Your task to perform on an android device: Search for usb-c to usb-b on ebay.com, select the first entry, and add it to the cart. Image 0: 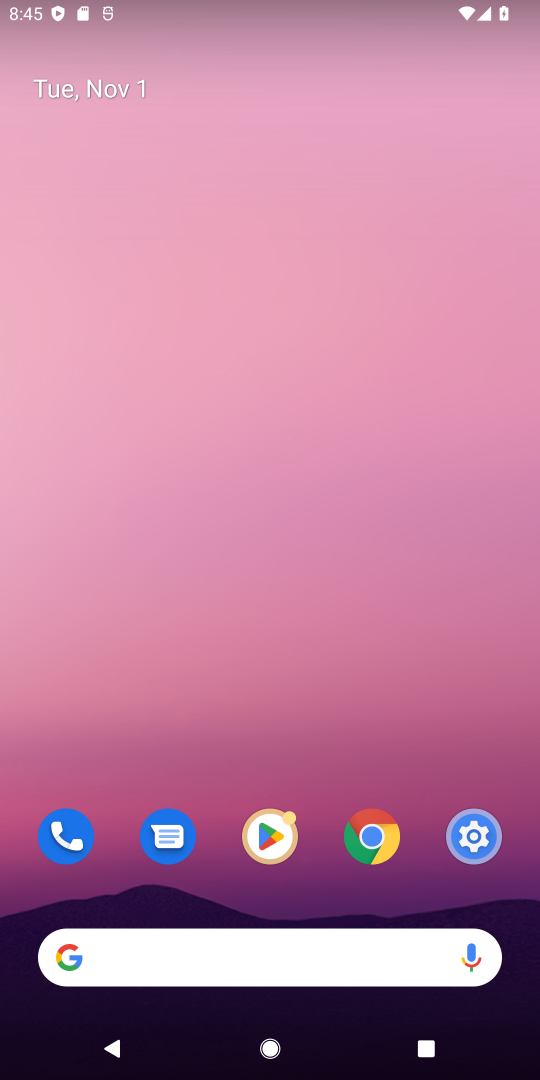
Step 0: click (383, 841)
Your task to perform on an android device: Search for usb-c to usb-b on ebay.com, select the first entry, and add it to the cart. Image 1: 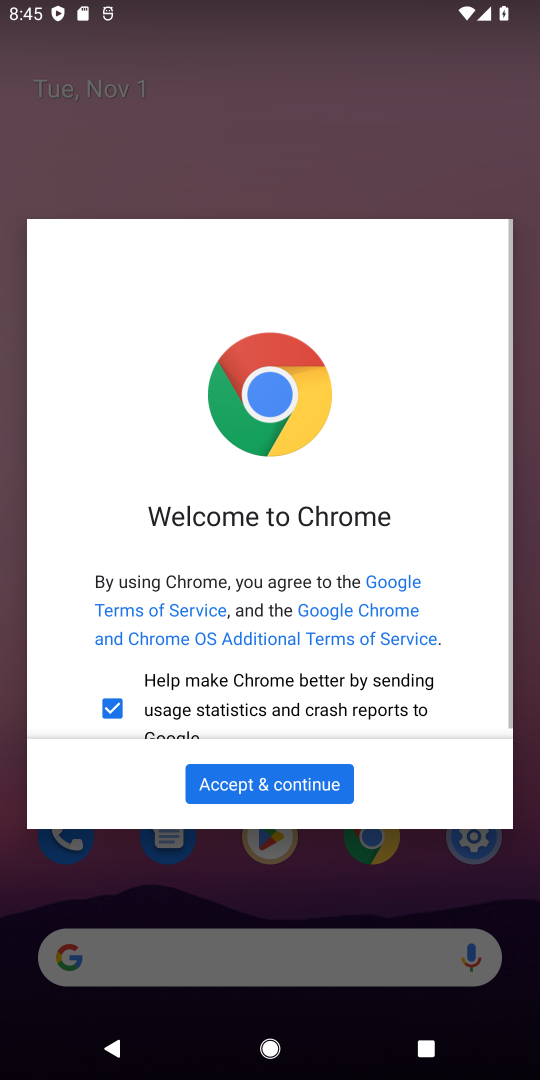
Step 1: click (248, 786)
Your task to perform on an android device: Search for usb-c to usb-b on ebay.com, select the first entry, and add it to the cart. Image 2: 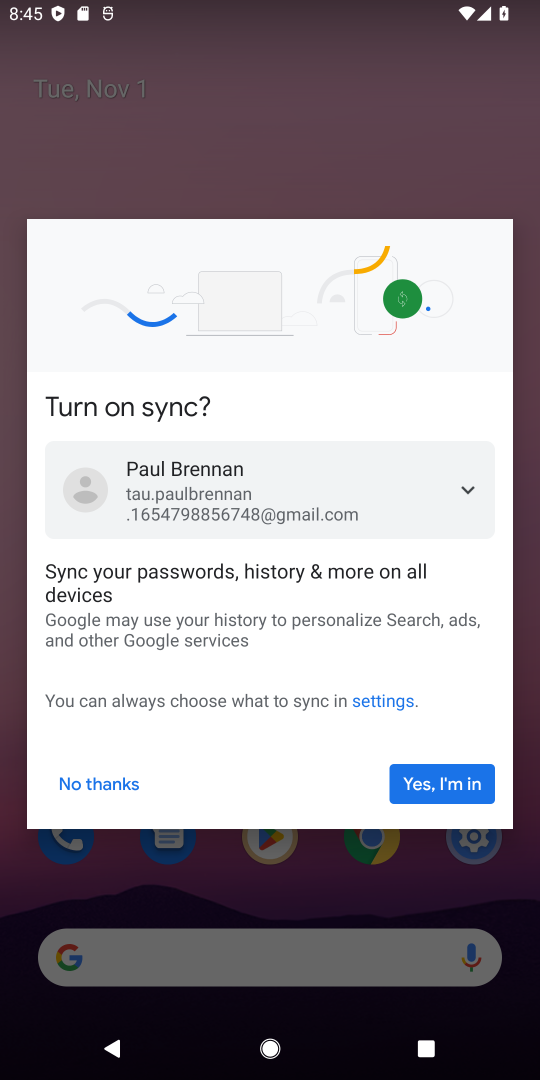
Step 2: click (411, 784)
Your task to perform on an android device: Search for usb-c to usb-b on ebay.com, select the first entry, and add it to the cart. Image 3: 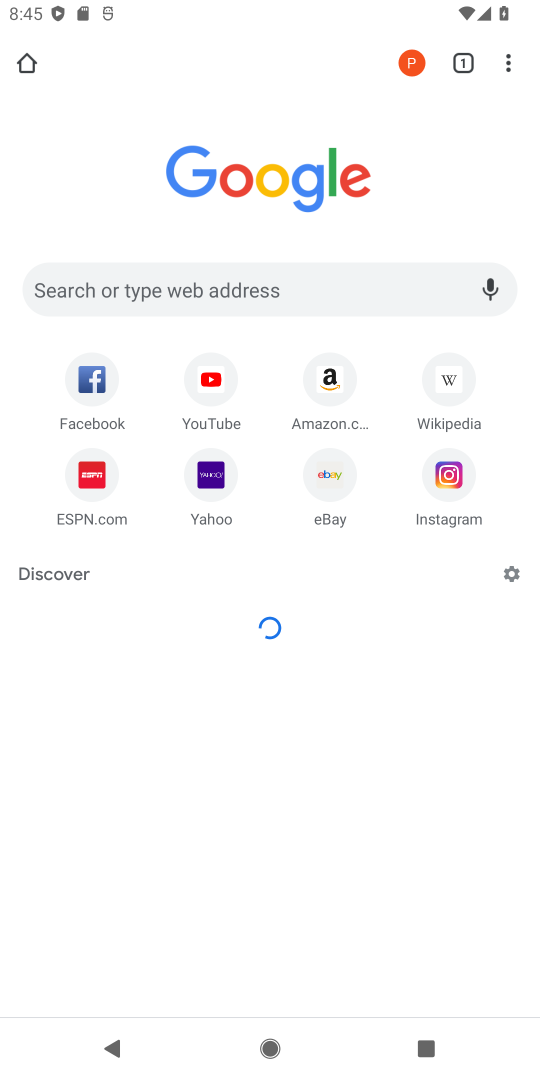
Step 3: click (282, 267)
Your task to perform on an android device: Search for usb-c to usb-b on ebay.com, select the first entry, and add it to the cart. Image 4: 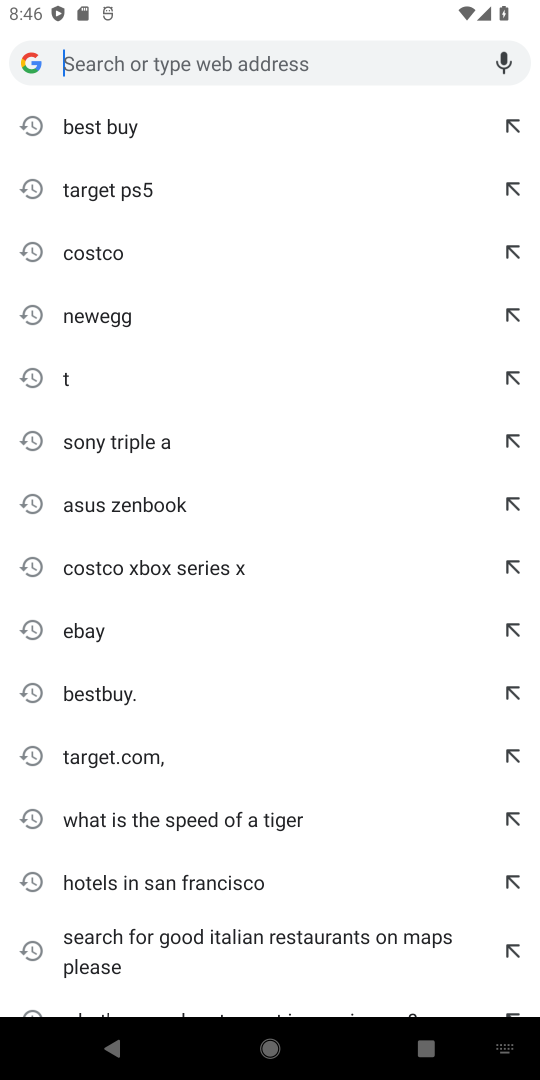
Step 4: type "ebay.com"
Your task to perform on an android device: Search for usb-c to usb-b on ebay.com, select the first entry, and add it to the cart. Image 5: 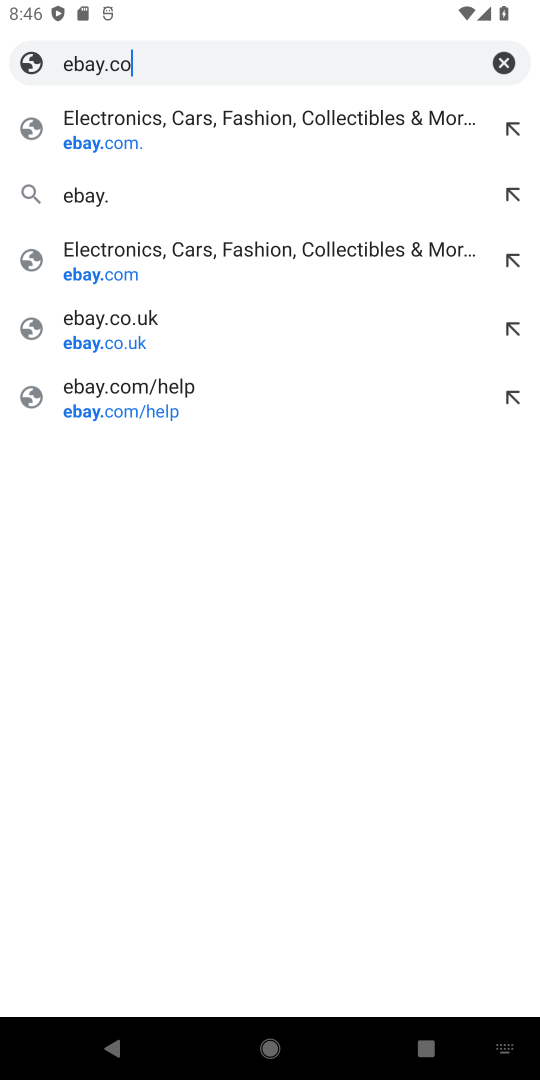
Step 5: press enter
Your task to perform on an android device: Search for usb-c to usb-b on ebay.com, select the first entry, and add it to the cart. Image 6: 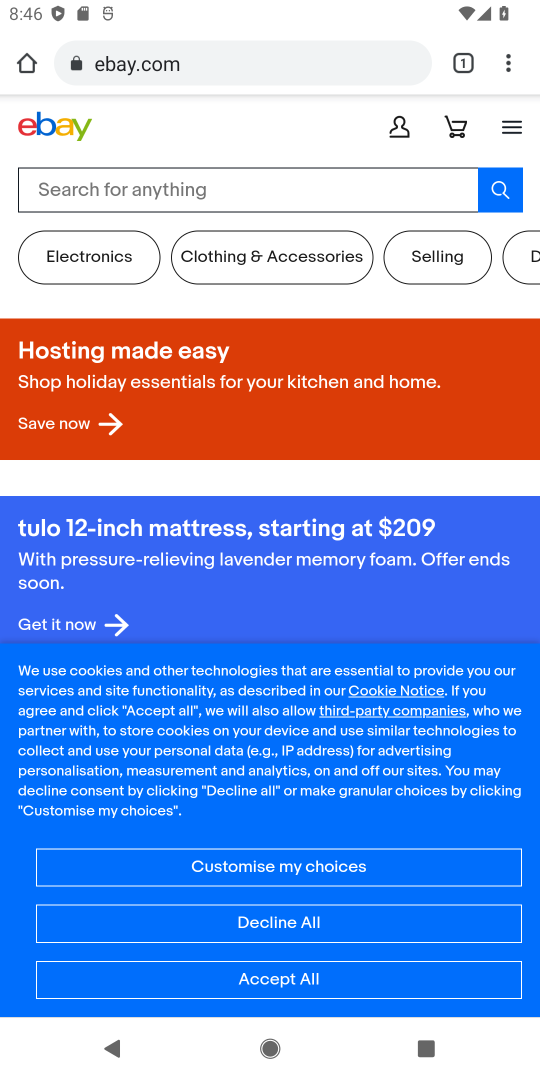
Step 6: click (184, 981)
Your task to perform on an android device: Search for usb-c to usb-b on ebay.com, select the first entry, and add it to the cart. Image 7: 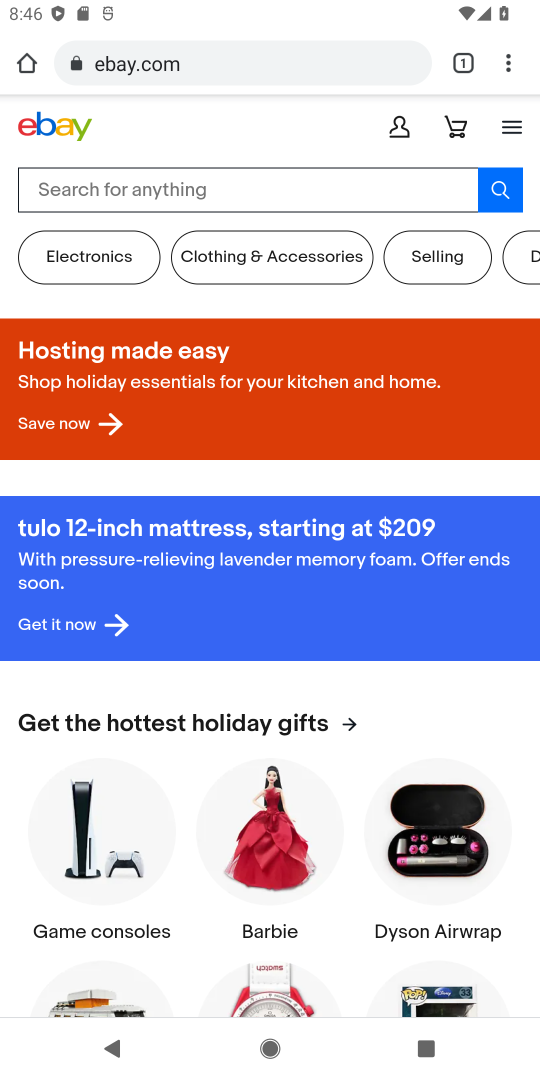
Step 7: click (331, 189)
Your task to perform on an android device: Search for usb-c to usb-b on ebay.com, select the first entry, and add it to the cart. Image 8: 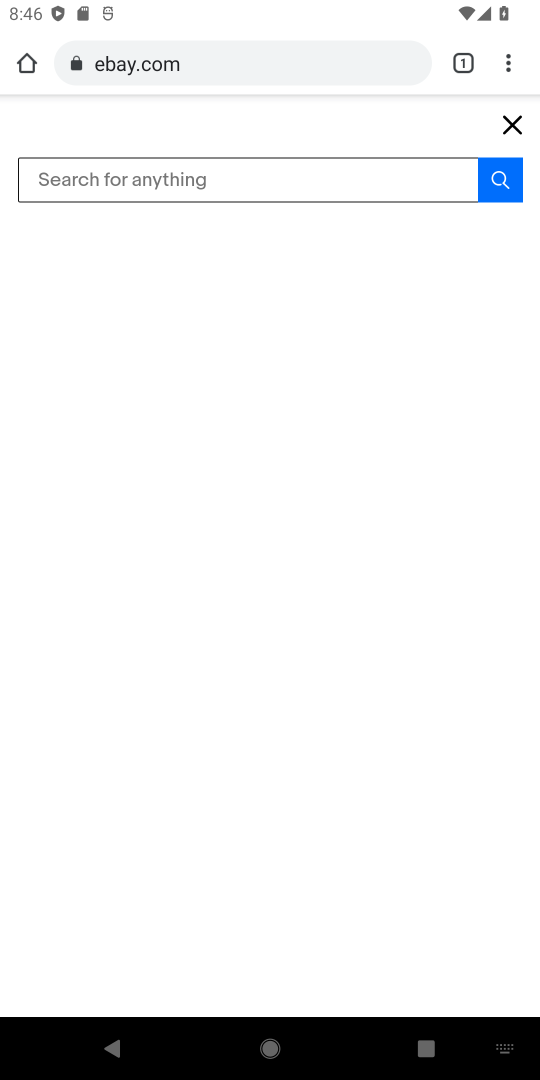
Step 8: type "usb-c to usb-b "
Your task to perform on an android device: Search for usb-c to usb-b on ebay.com, select the first entry, and add it to the cart. Image 9: 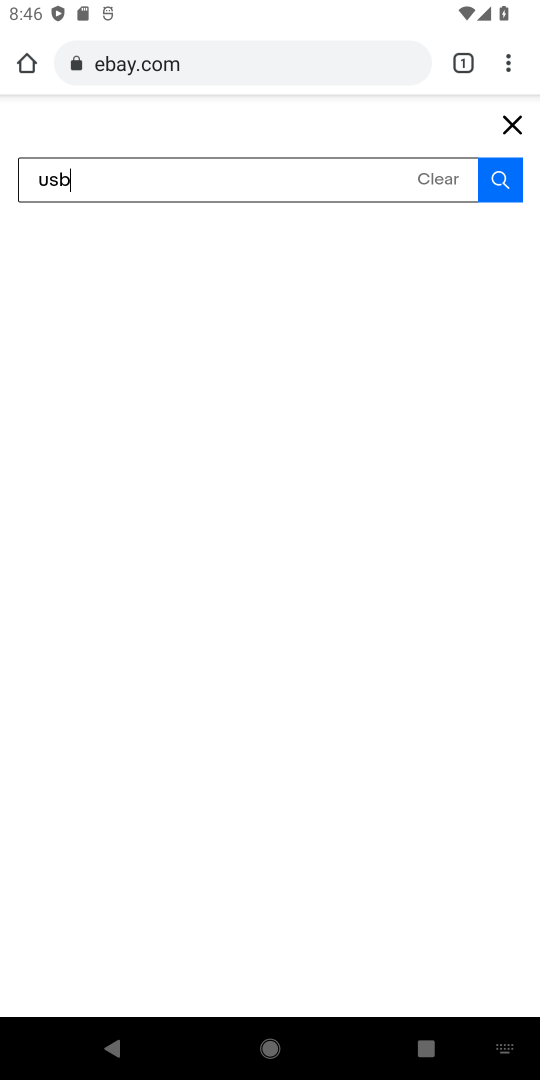
Step 9: type ""
Your task to perform on an android device: Search for usb-c to usb-b on ebay.com, select the first entry, and add it to the cart. Image 10: 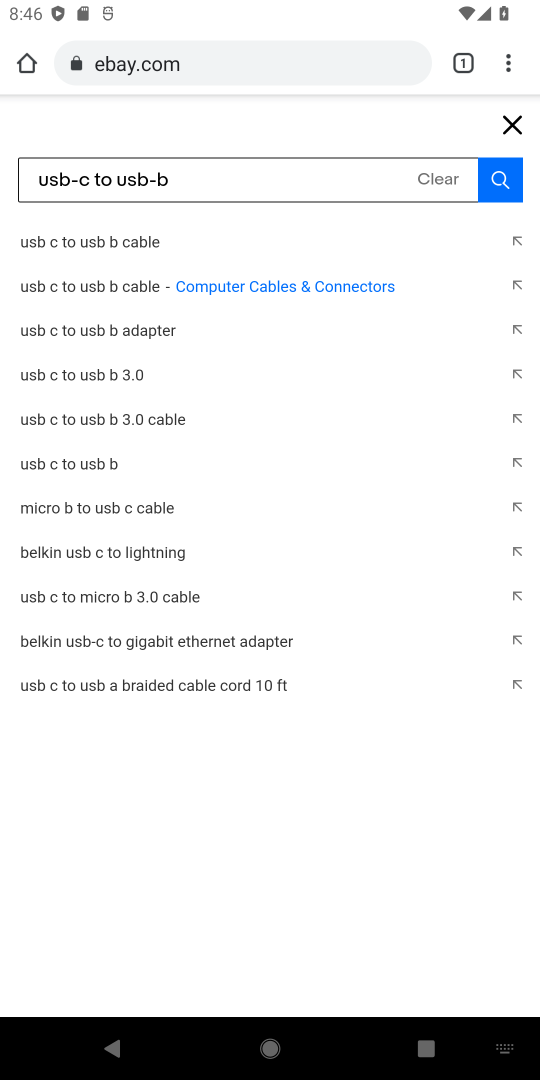
Step 10: click (156, 236)
Your task to perform on an android device: Search for usb-c to usb-b on ebay.com, select the first entry, and add it to the cart. Image 11: 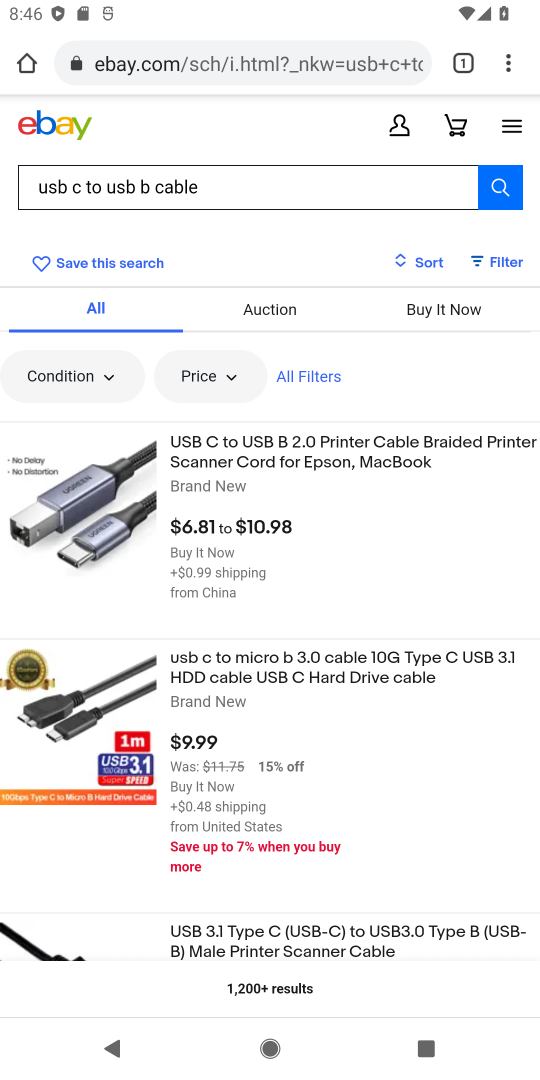
Step 11: click (208, 491)
Your task to perform on an android device: Search for usb-c to usb-b on ebay.com, select the first entry, and add it to the cart. Image 12: 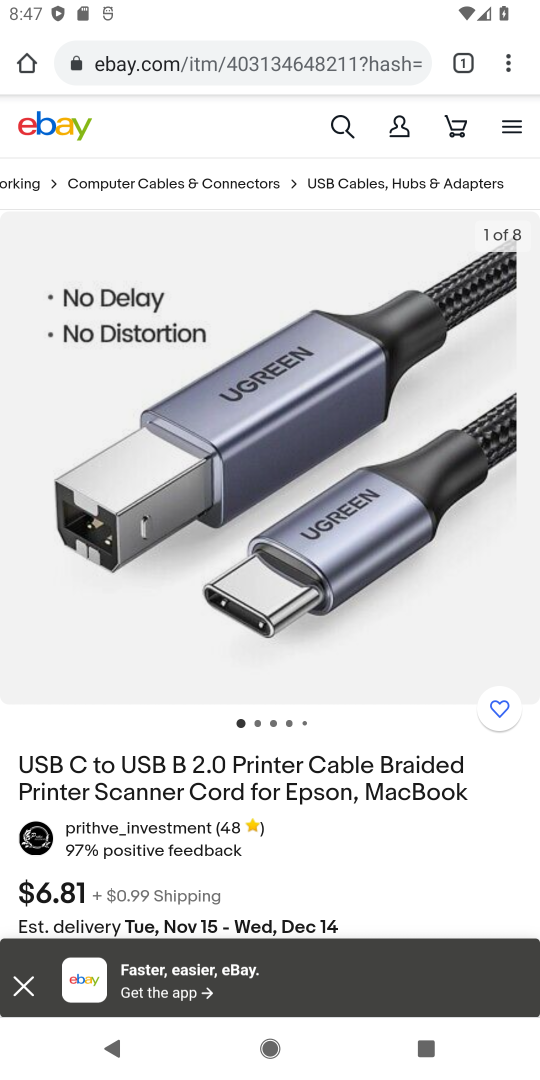
Step 12: drag from (318, 538) to (348, 368)
Your task to perform on an android device: Search for usb-c to usb-b on ebay.com, select the first entry, and add it to the cart. Image 13: 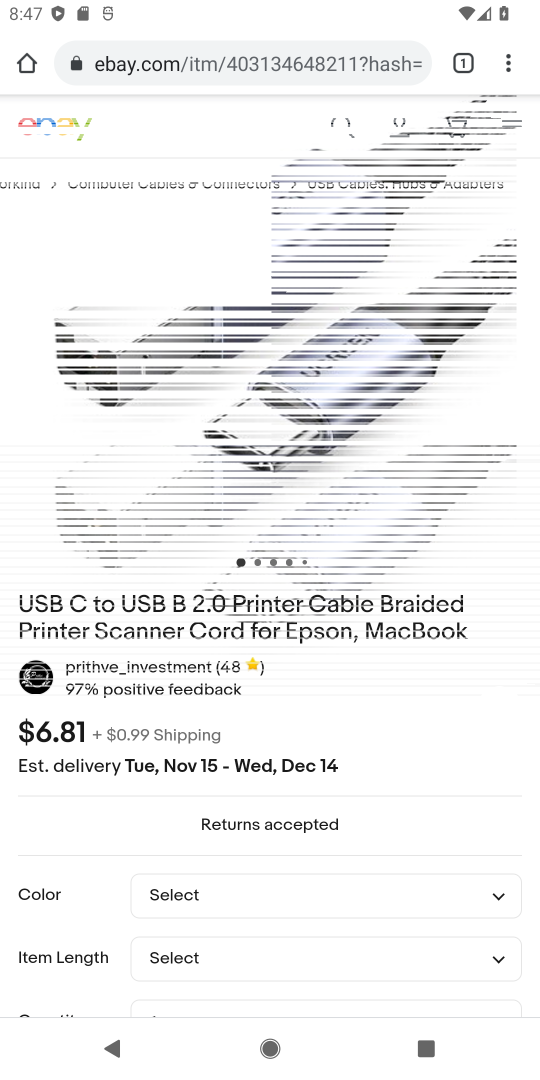
Step 13: click (392, 375)
Your task to perform on an android device: Search for usb-c to usb-b on ebay.com, select the first entry, and add it to the cart. Image 14: 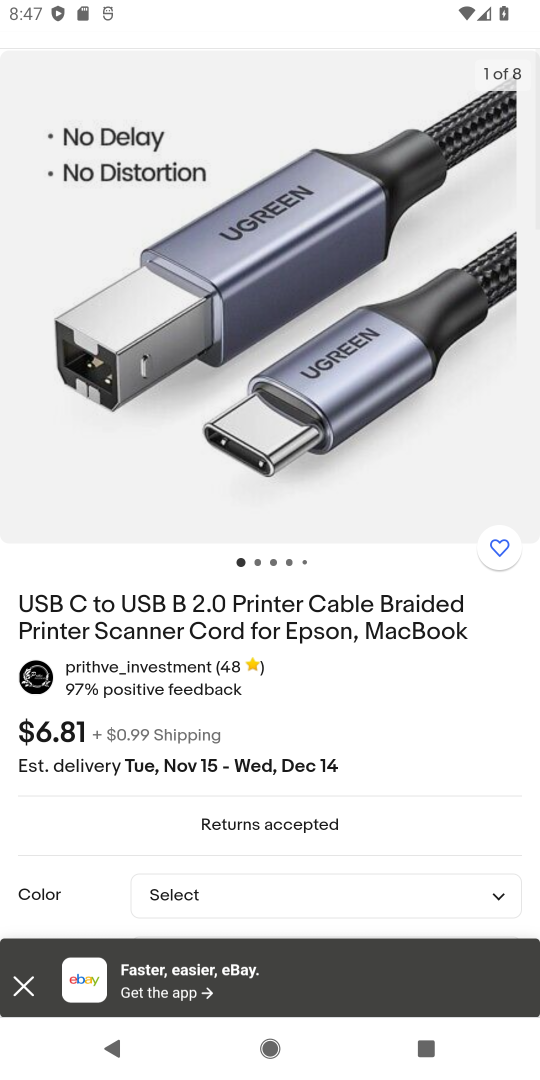
Step 14: drag from (451, 366) to (469, 290)
Your task to perform on an android device: Search for usb-c to usb-b on ebay.com, select the first entry, and add it to the cart. Image 15: 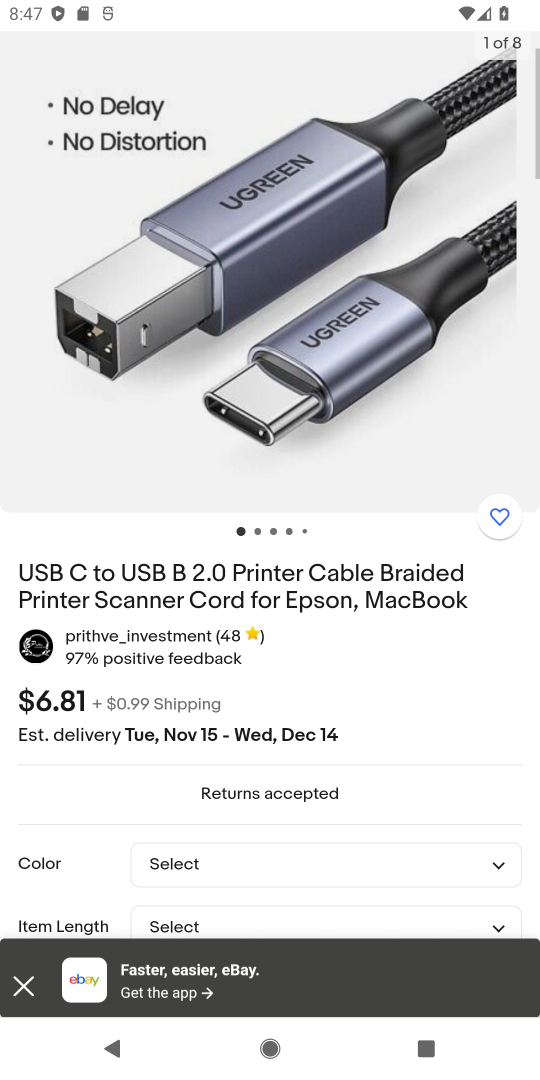
Step 15: drag from (503, 434) to (509, 382)
Your task to perform on an android device: Search for usb-c to usb-b on ebay.com, select the first entry, and add it to the cart. Image 16: 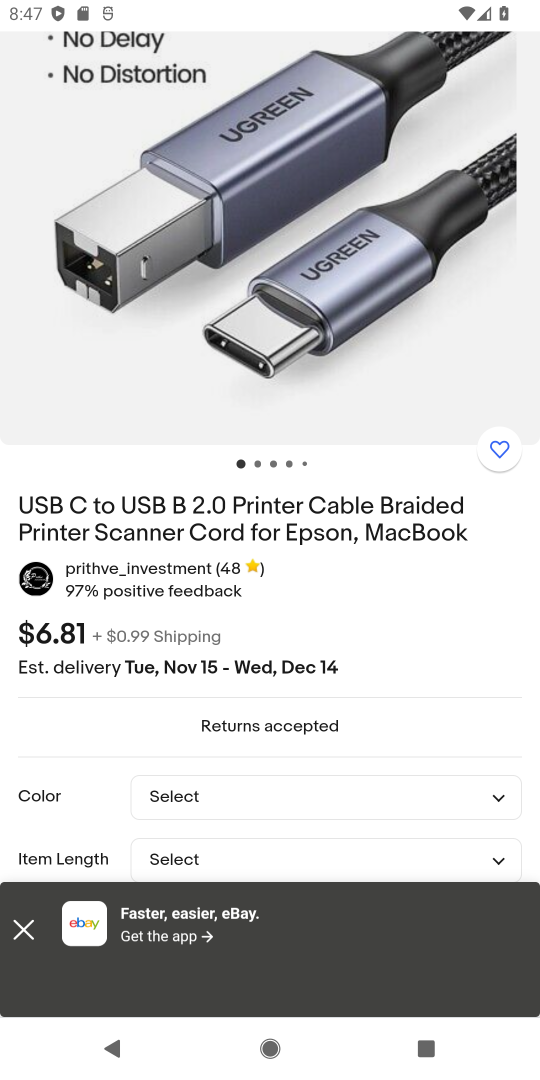
Step 16: drag from (452, 588) to (504, 363)
Your task to perform on an android device: Search for usb-c to usb-b on ebay.com, select the first entry, and add it to the cart. Image 17: 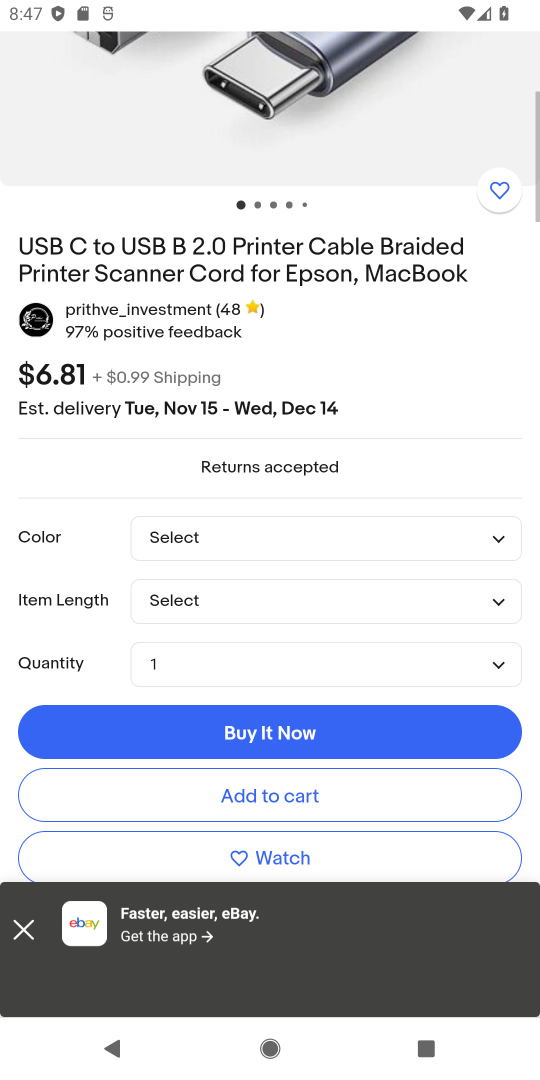
Step 17: drag from (487, 551) to (537, 385)
Your task to perform on an android device: Search for usb-c to usb-b on ebay.com, select the first entry, and add it to the cart. Image 18: 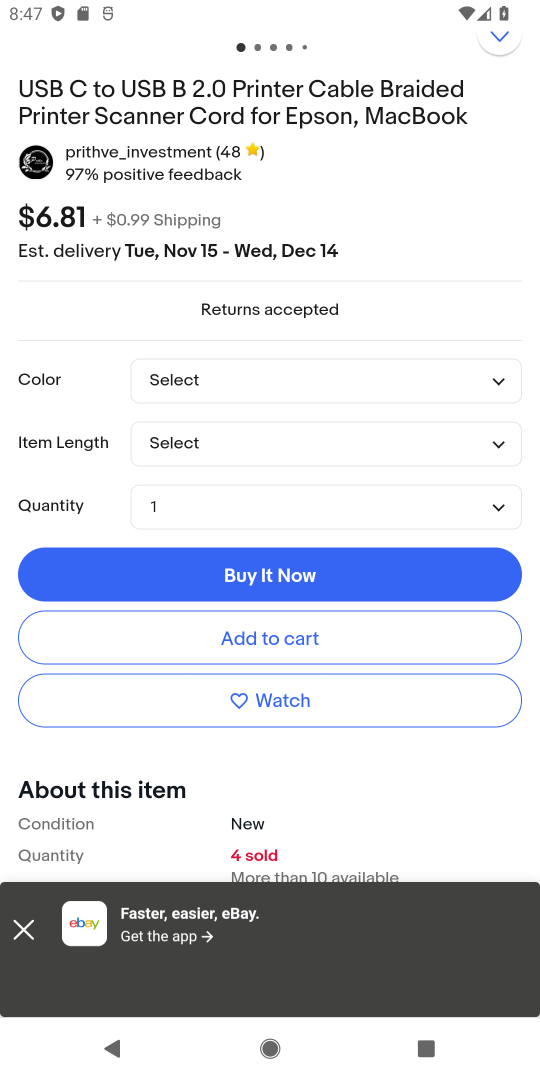
Step 18: click (298, 640)
Your task to perform on an android device: Search for usb-c to usb-b on ebay.com, select the first entry, and add it to the cart. Image 19: 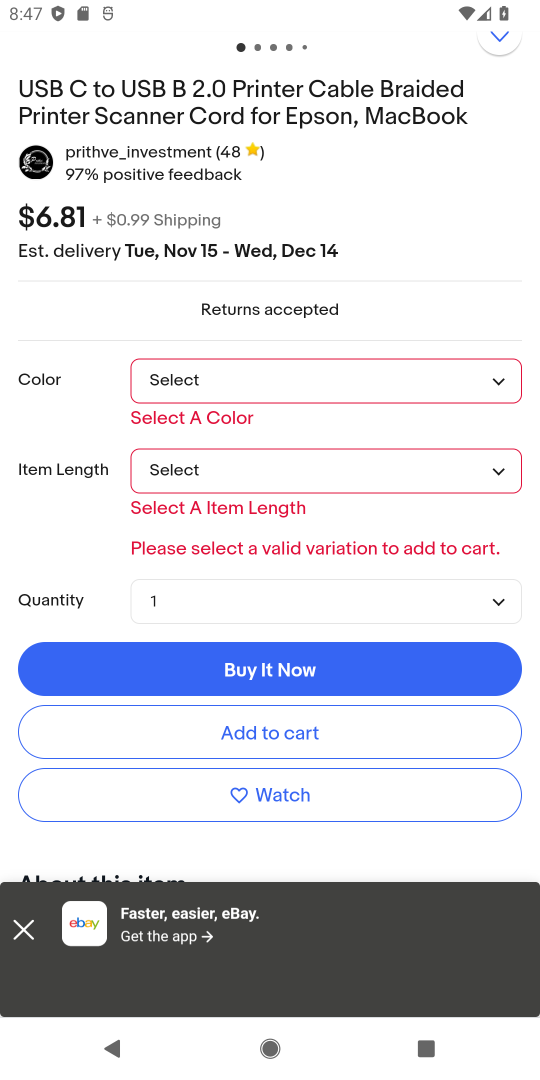
Step 19: click (303, 392)
Your task to perform on an android device: Search for usb-c to usb-b on ebay.com, select the first entry, and add it to the cart. Image 20: 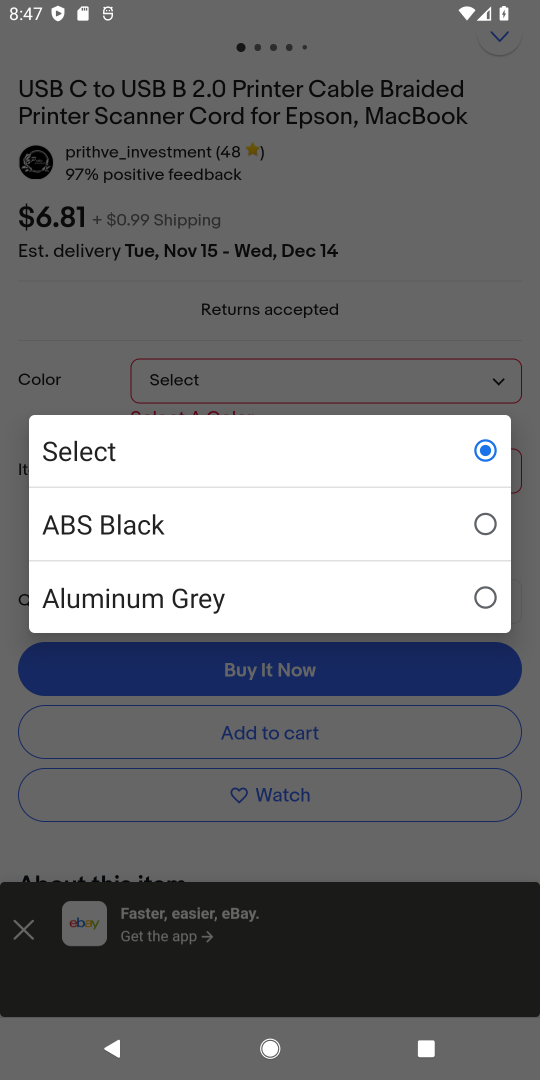
Step 20: click (269, 517)
Your task to perform on an android device: Search for usb-c to usb-b on ebay.com, select the first entry, and add it to the cart. Image 21: 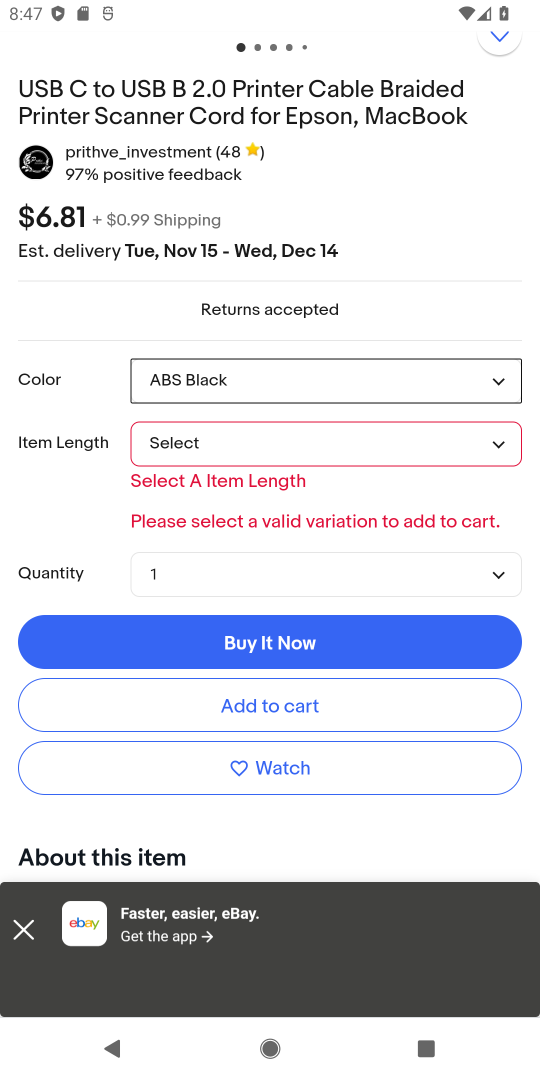
Step 21: click (290, 443)
Your task to perform on an android device: Search for usb-c to usb-b on ebay.com, select the first entry, and add it to the cart. Image 22: 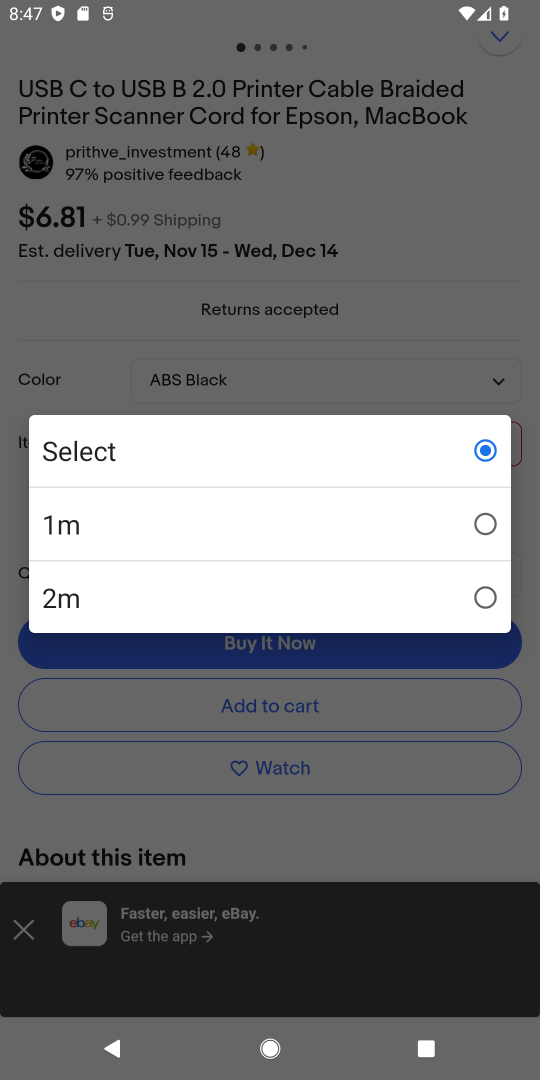
Step 22: click (258, 596)
Your task to perform on an android device: Search for usb-c to usb-b on ebay.com, select the first entry, and add it to the cart. Image 23: 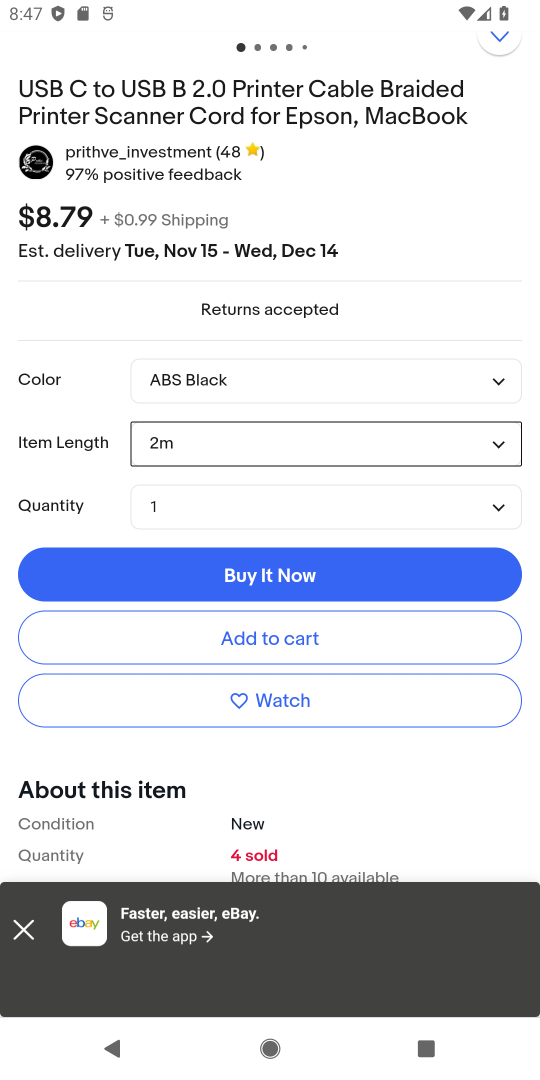
Step 23: click (262, 624)
Your task to perform on an android device: Search for usb-c to usb-b on ebay.com, select the first entry, and add it to the cart. Image 24: 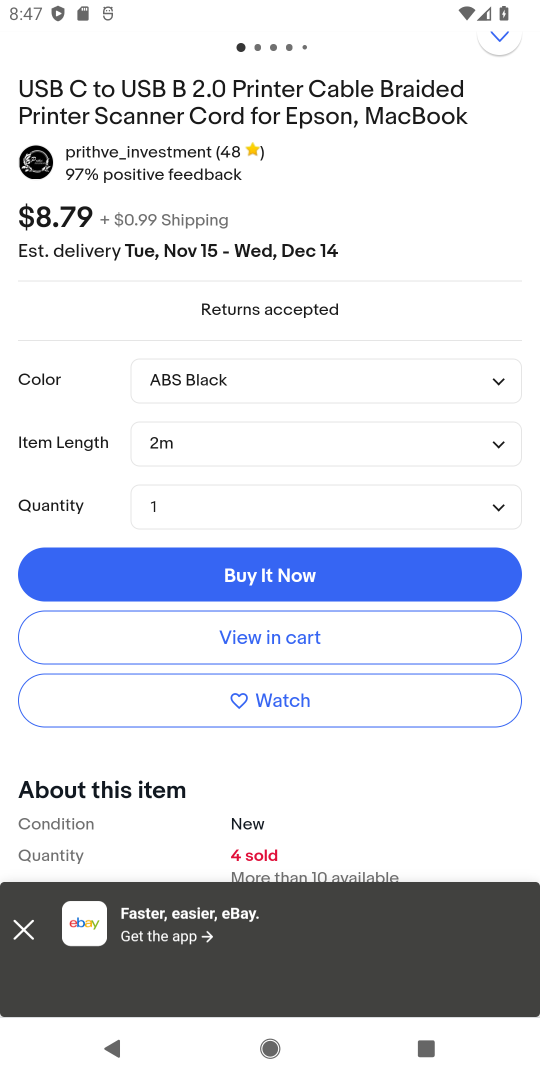
Step 24: click (23, 925)
Your task to perform on an android device: Search for usb-c to usb-b on ebay.com, select the first entry, and add it to the cart. Image 25: 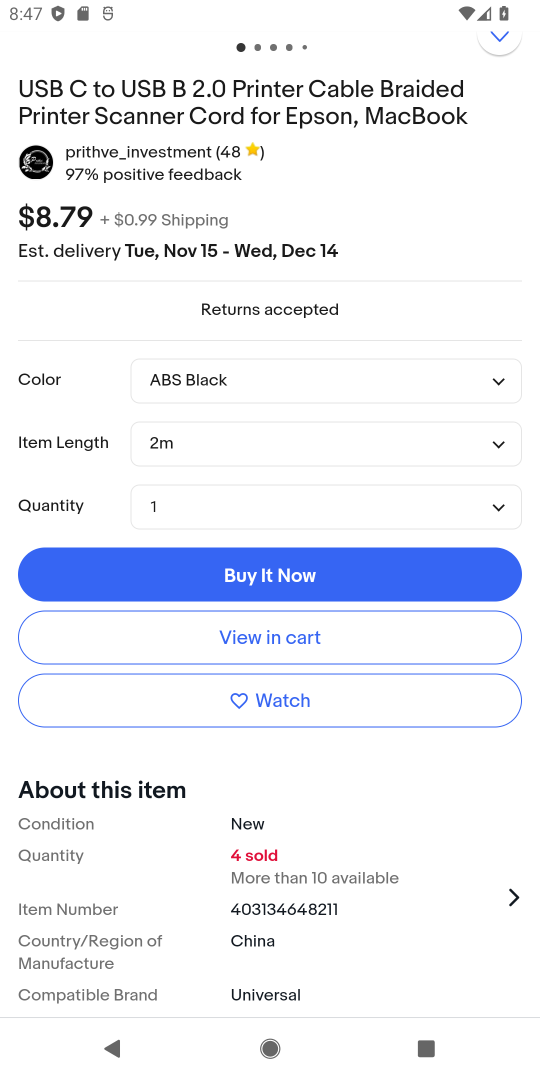
Step 25: click (221, 639)
Your task to perform on an android device: Search for usb-c to usb-b on ebay.com, select the first entry, and add it to the cart. Image 26: 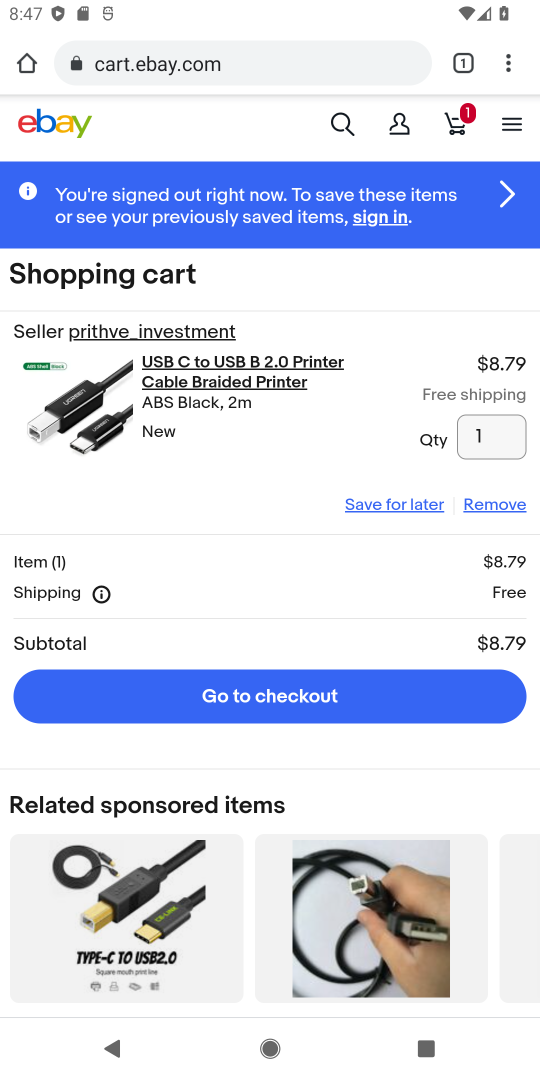
Step 26: click (234, 704)
Your task to perform on an android device: Search for usb-c to usb-b on ebay.com, select the first entry, and add it to the cart. Image 27: 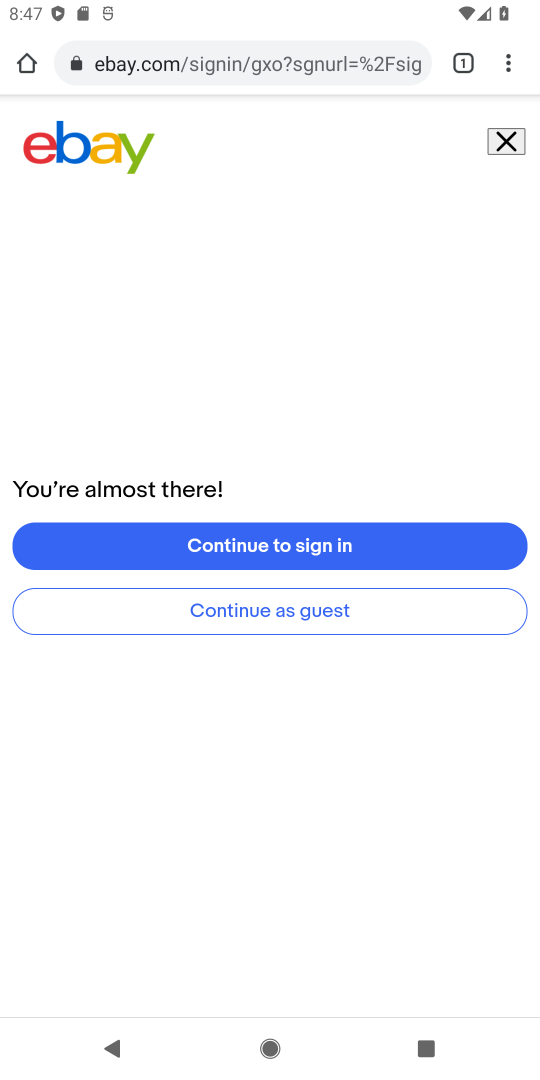
Step 27: click (265, 605)
Your task to perform on an android device: Search for usb-c to usb-b on ebay.com, select the first entry, and add it to the cart. Image 28: 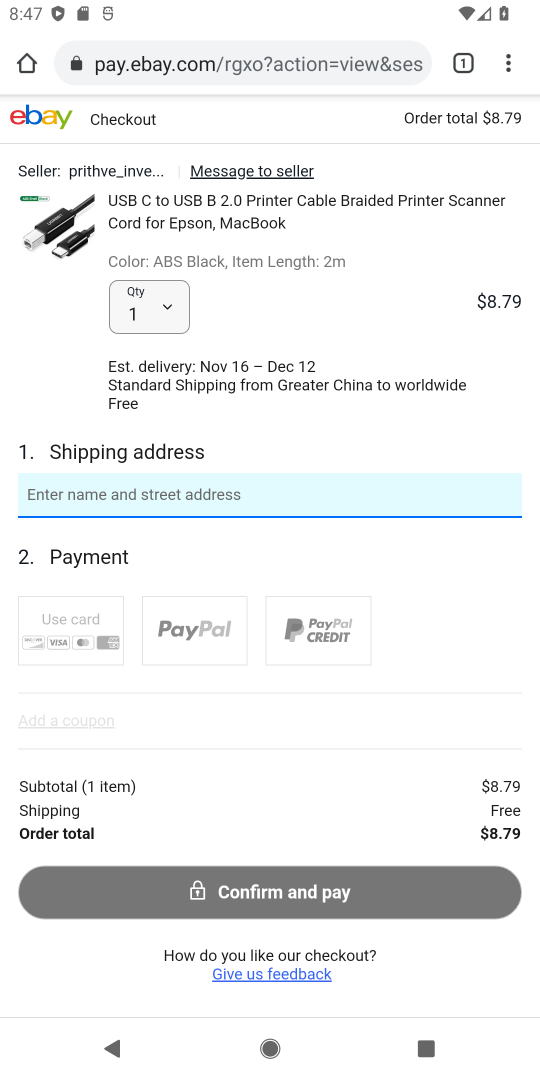
Step 28: drag from (332, 320) to (346, 259)
Your task to perform on an android device: Search for usb-c to usb-b on ebay.com, select the first entry, and add it to the cart. Image 29: 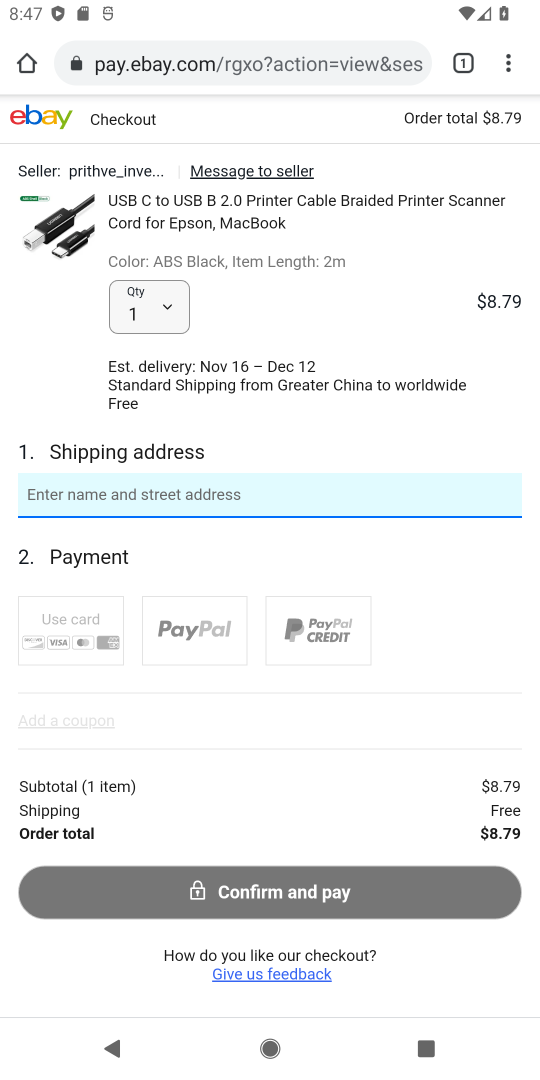
Step 29: drag from (299, 576) to (379, 309)
Your task to perform on an android device: Search for usb-c to usb-b on ebay.com, select the first entry, and add it to the cart. Image 30: 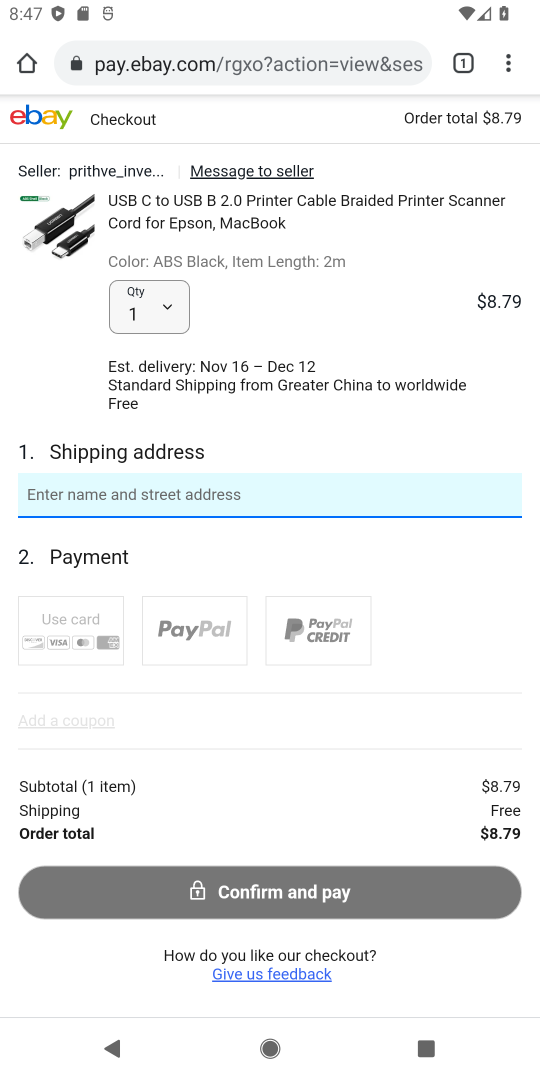
Step 30: drag from (328, 614) to (424, 265)
Your task to perform on an android device: Search for usb-c to usb-b on ebay.com, select the first entry, and add it to the cart. Image 31: 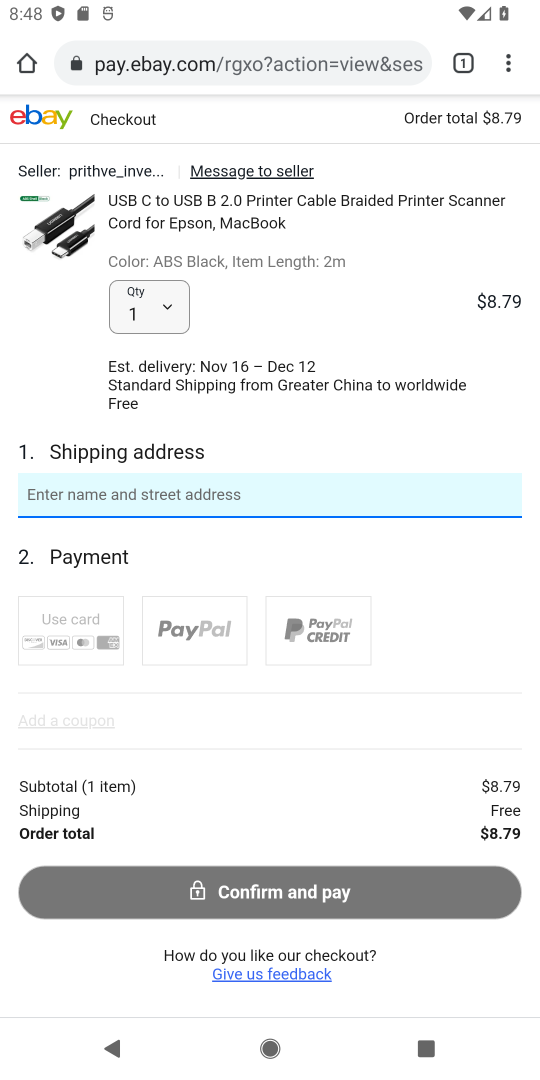
Step 31: drag from (237, 610) to (270, 259)
Your task to perform on an android device: Search for usb-c to usb-b on ebay.com, select the first entry, and add it to the cart. Image 32: 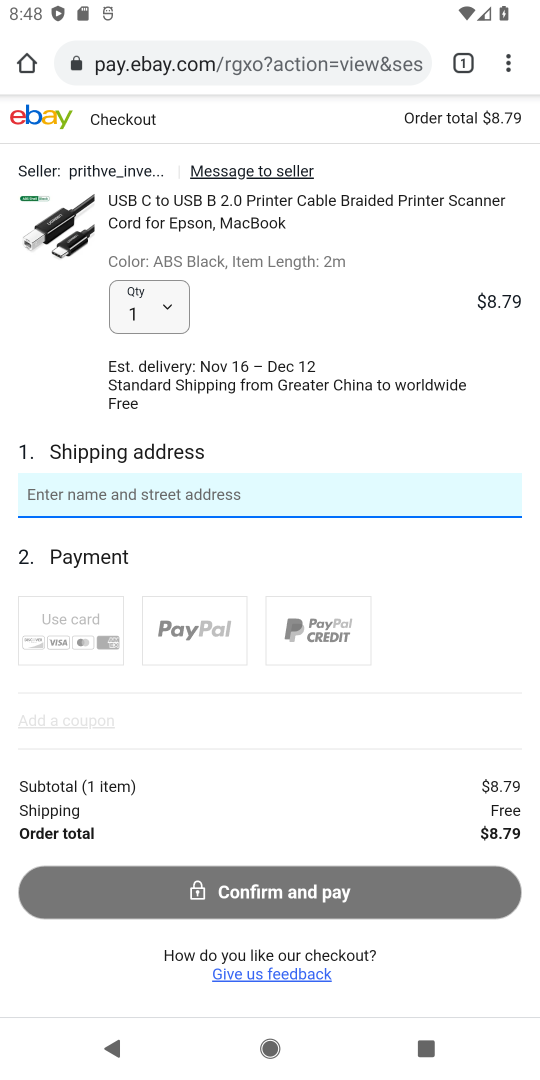
Step 32: drag from (248, 565) to (300, 216)
Your task to perform on an android device: Search for usb-c to usb-b on ebay.com, select the first entry, and add it to the cart. Image 33: 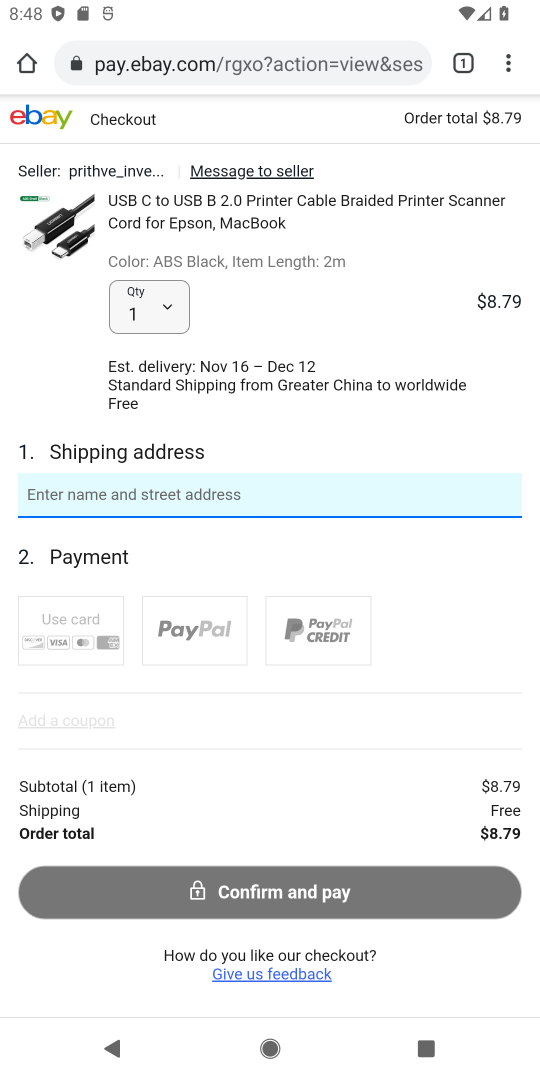
Step 33: click (329, 294)
Your task to perform on an android device: Search for usb-c to usb-b on ebay.com, select the first entry, and add it to the cart. Image 34: 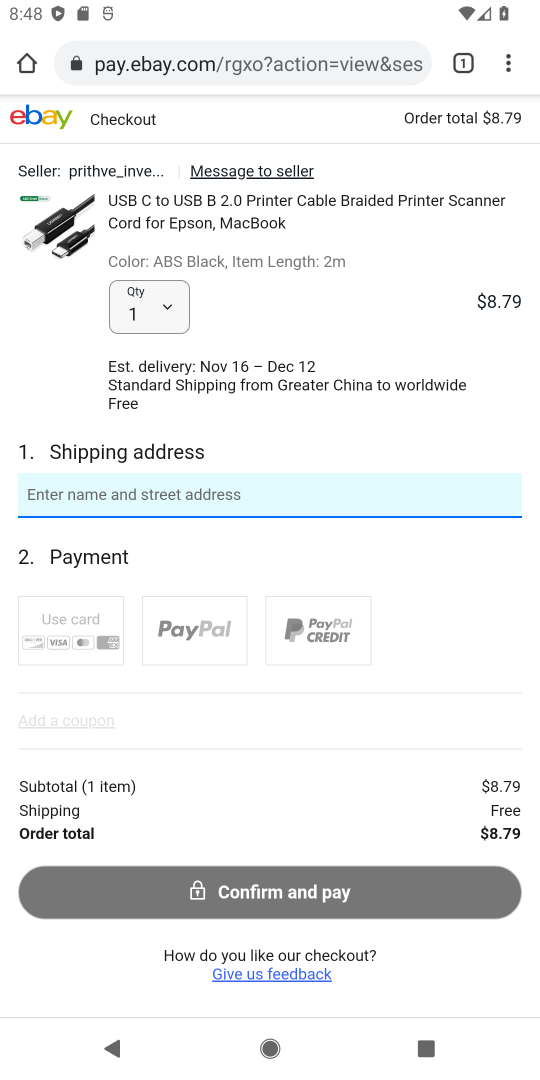
Step 34: press back button
Your task to perform on an android device: Search for usb-c to usb-b on ebay.com, select the first entry, and add it to the cart. Image 35: 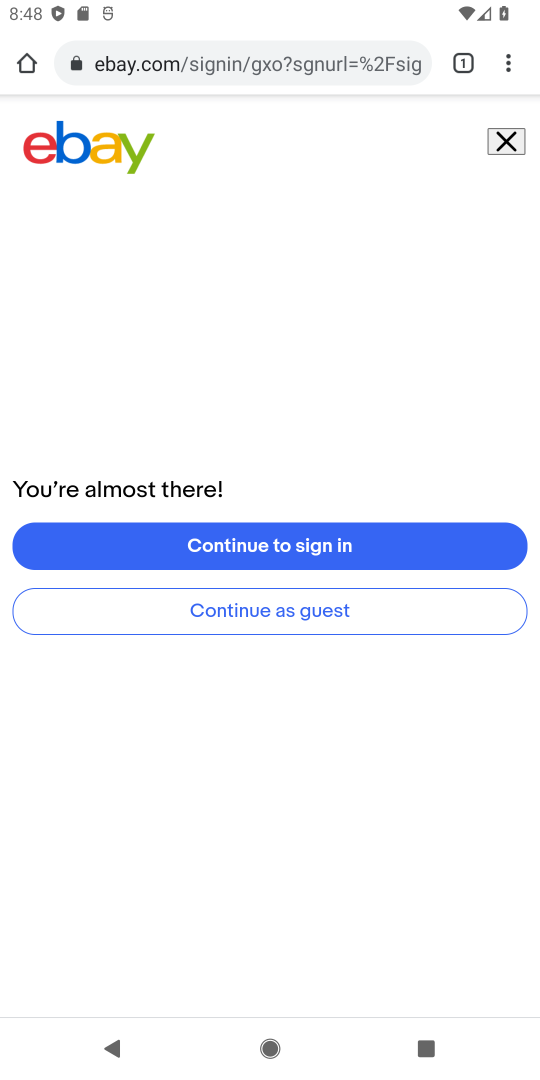
Step 35: click (497, 136)
Your task to perform on an android device: Search for usb-c to usb-b on ebay.com, select the first entry, and add it to the cart. Image 36: 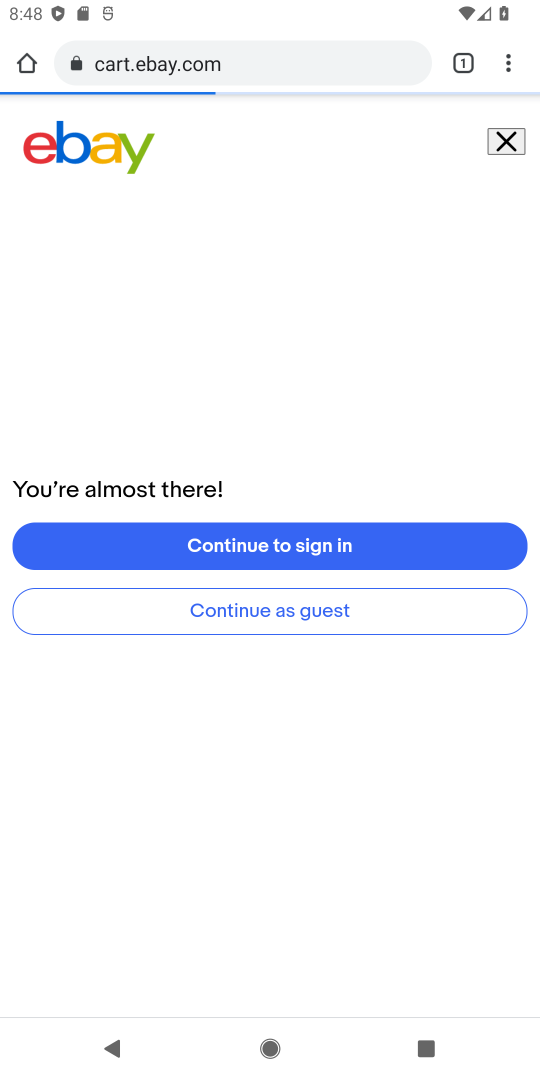
Step 36: drag from (303, 685) to (379, 295)
Your task to perform on an android device: Search for usb-c to usb-b on ebay.com, select the first entry, and add it to the cart. Image 37: 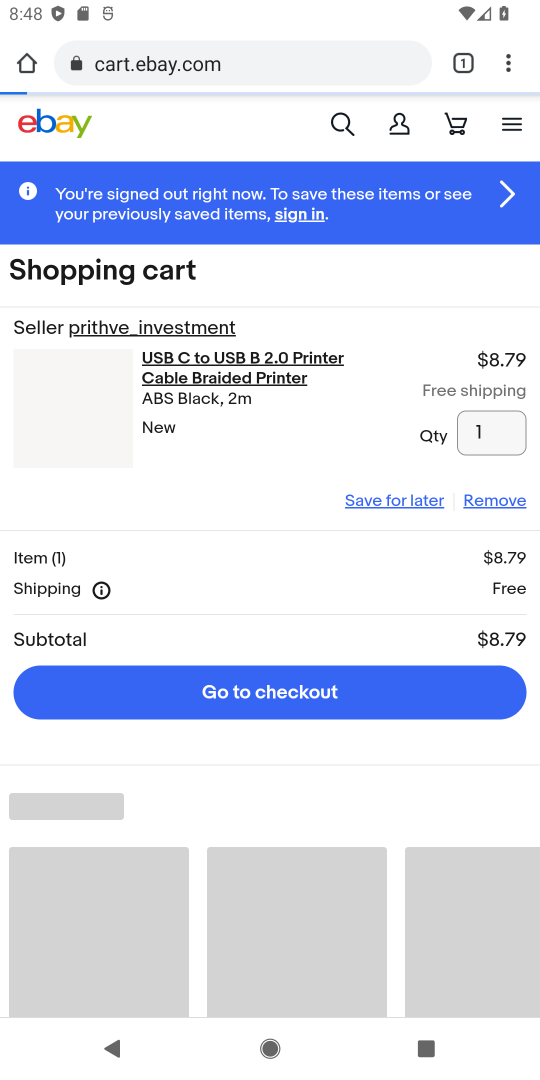
Step 37: click (395, 223)
Your task to perform on an android device: Search for usb-c to usb-b on ebay.com, select the first entry, and add it to the cart. Image 38: 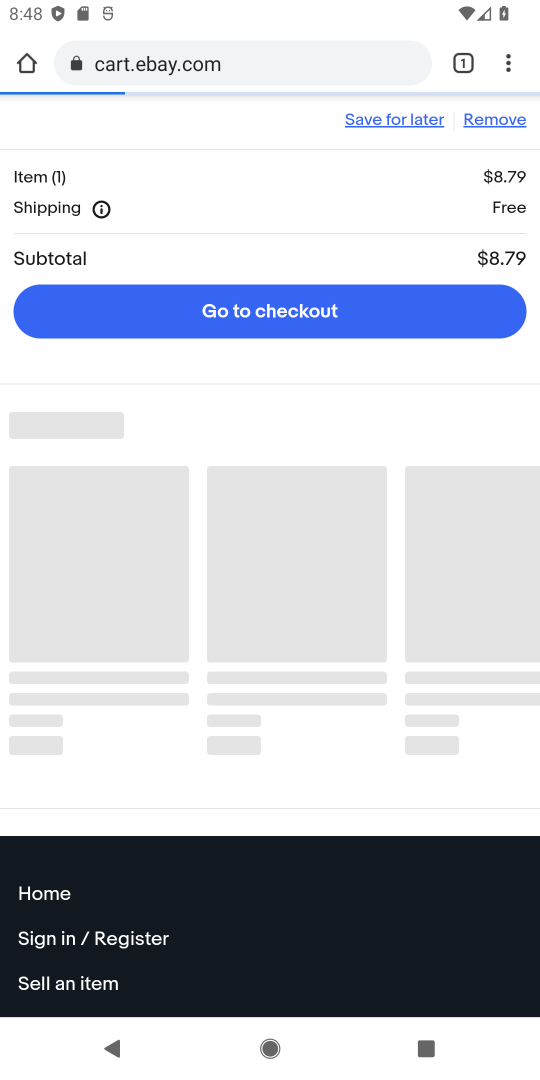
Step 38: drag from (375, 701) to (437, 186)
Your task to perform on an android device: Search for usb-c to usb-b on ebay.com, select the first entry, and add it to the cart. Image 39: 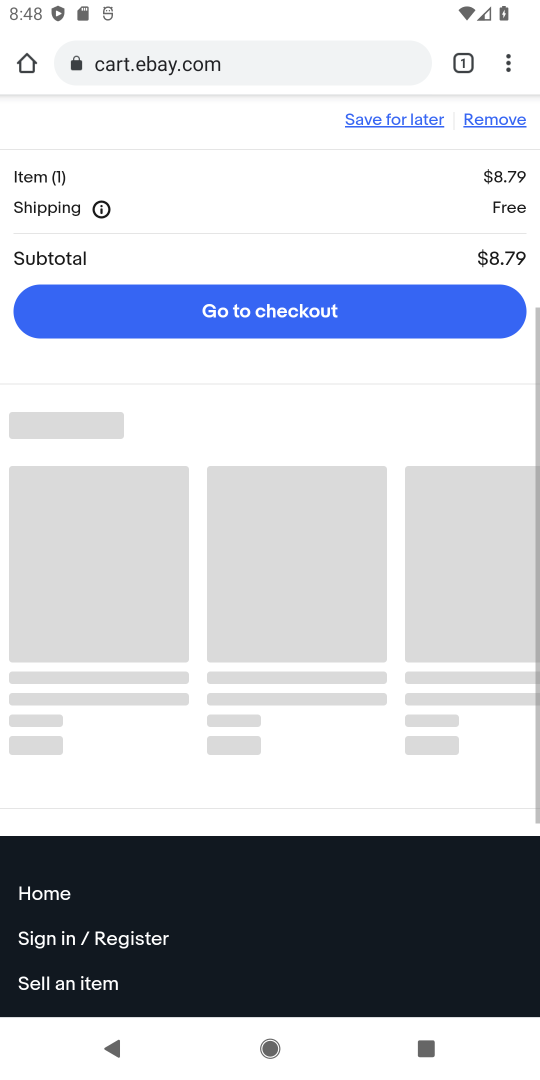
Step 39: drag from (310, 705) to (367, 301)
Your task to perform on an android device: Search for usb-c to usb-b on ebay.com, select the first entry, and add it to the cart. Image 40: 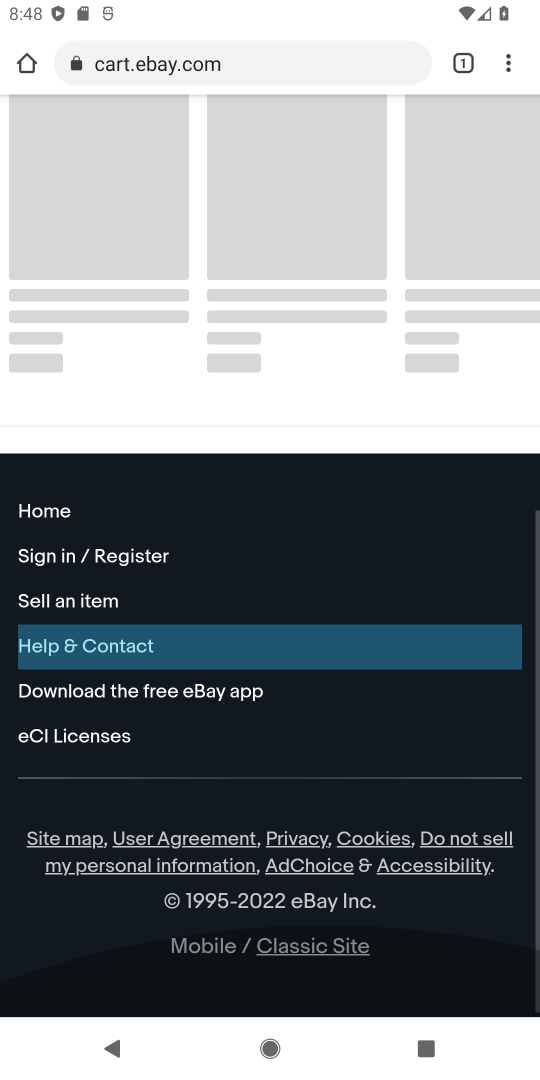
Step 40: drag from (317, 358) to (328, 298)
Your task to perform on an android device: Search for usb-c to usb-b on ebay.com, select the first entry, and add it to the cart. Image 41: 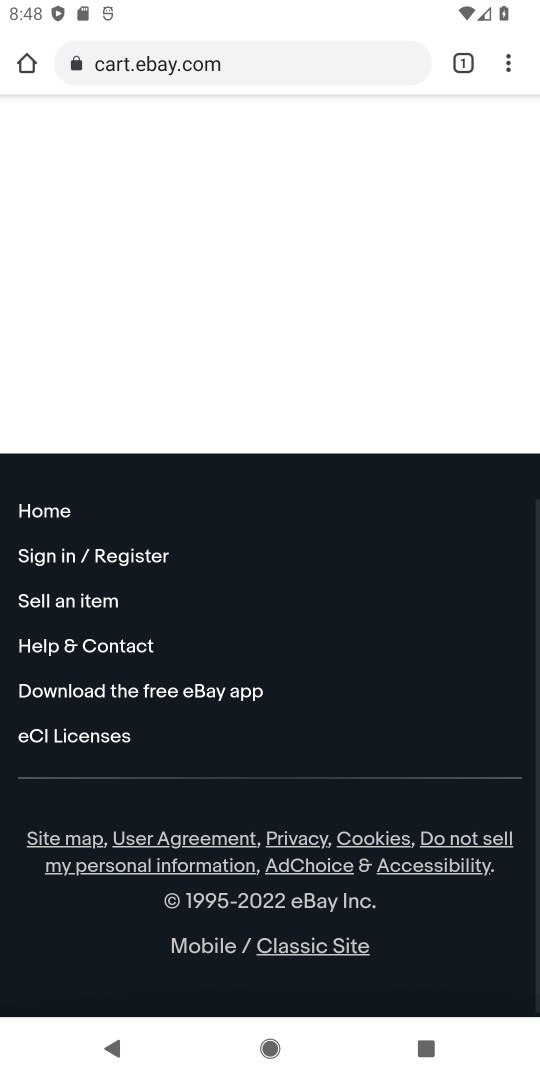
Step 41: drag from (314, 682) to (400, 254)
Your task to perform on an android device: Search for usb-c to usb-b on ebay.com, select the first entry, and add it to the cart. Image 42: 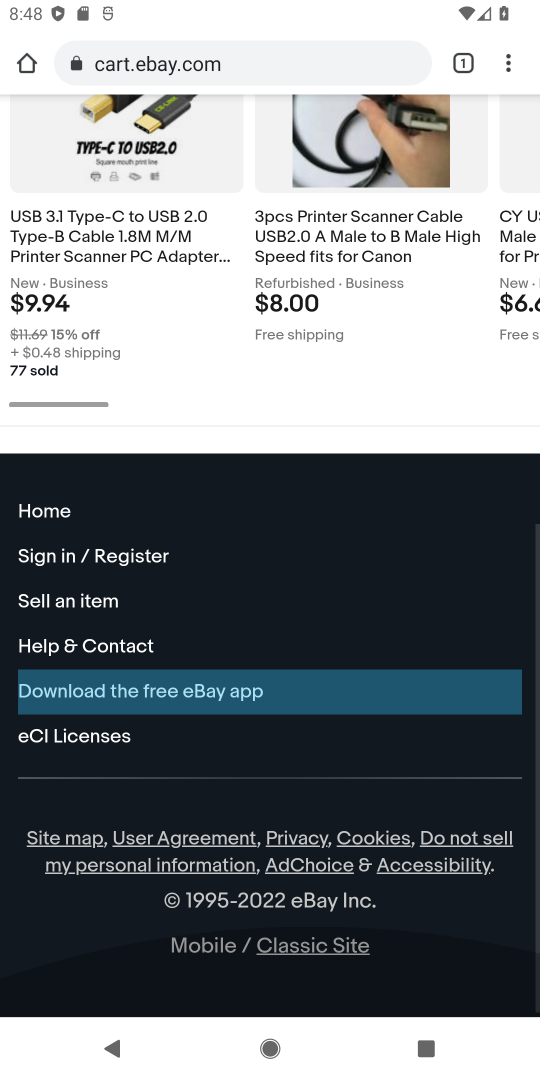
Step 42: click (372, 321)
Your task to perform on an android device: Search for usb-c to usb-b on ebay.com, select the first entry, and add it to the cart. Image 43: 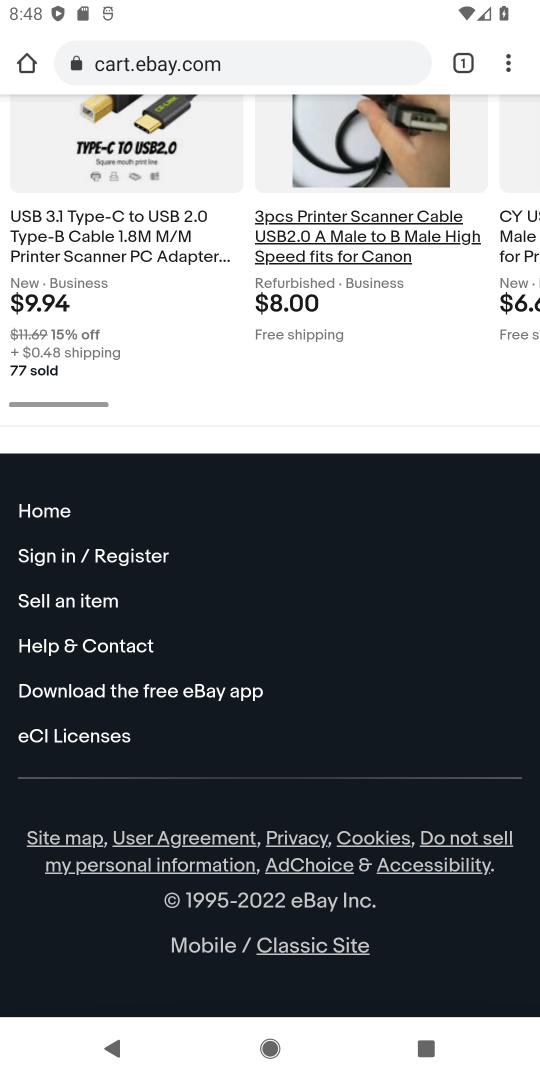
Step 43: drag from (311, 590) to (360, 272)
Your task to perform on an android device: Search for usb-c to usb-b on ebay.com, select the first entry, and add it to the cart. Image 44: 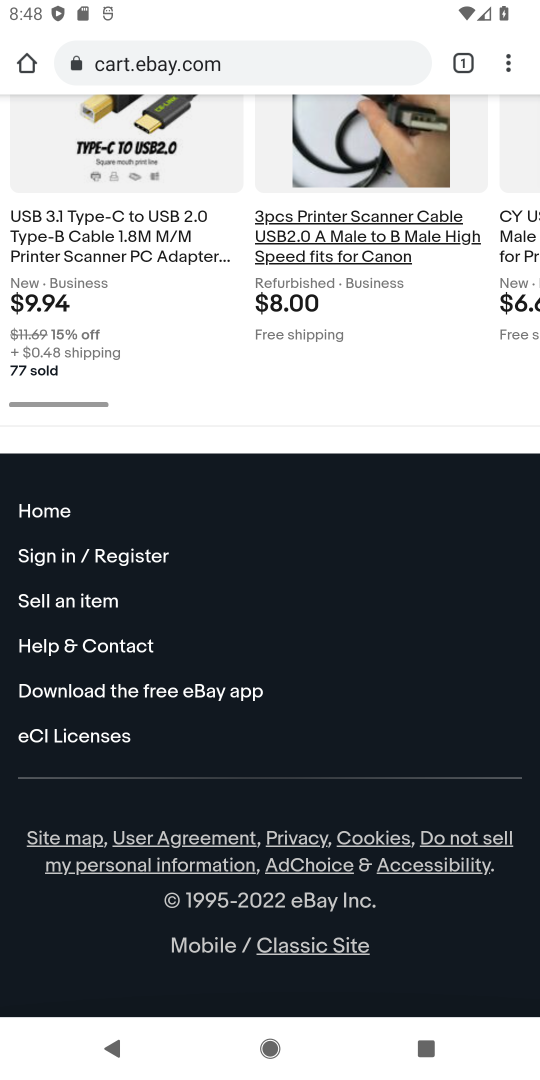
Step 44: press back button
Your task to perform on an android device: Search for usb-c to usb-b on ebay.com, select the first entry, and add it to the cart. Image 45: 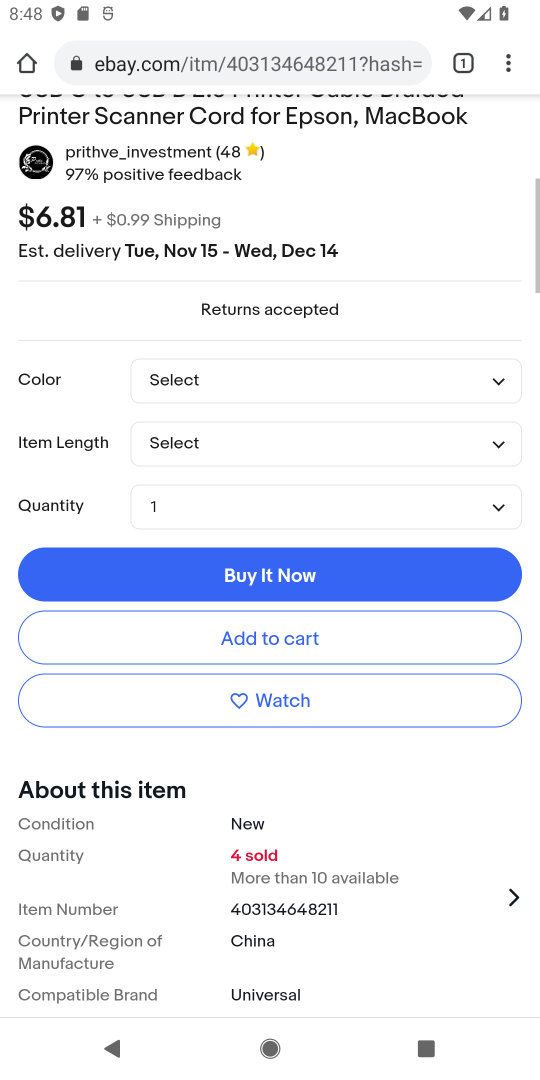
Step 45: drag from (284, 720) to (326, 269)
Your task to perform on an android device: Search for usb-c to usb-b on ebay.com, select the first entry, and add it to the cart. Image 46: 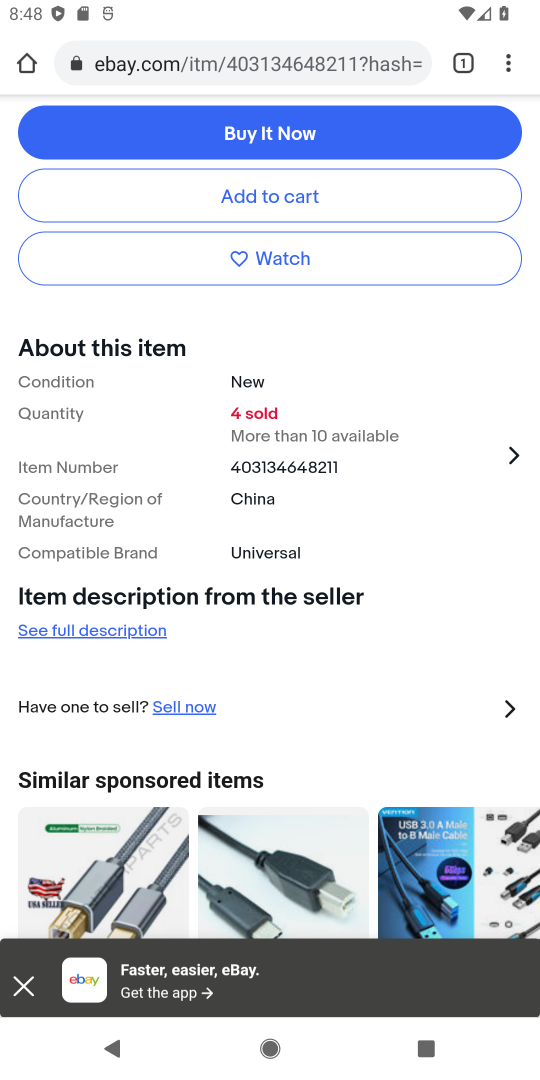
Step 46: drag from (337, 660) to (376, 296)
Your task to perform on an android device: Search for usb-c to usb-b on ebay.com, select the first entry, and add it to the cart. Image 47: 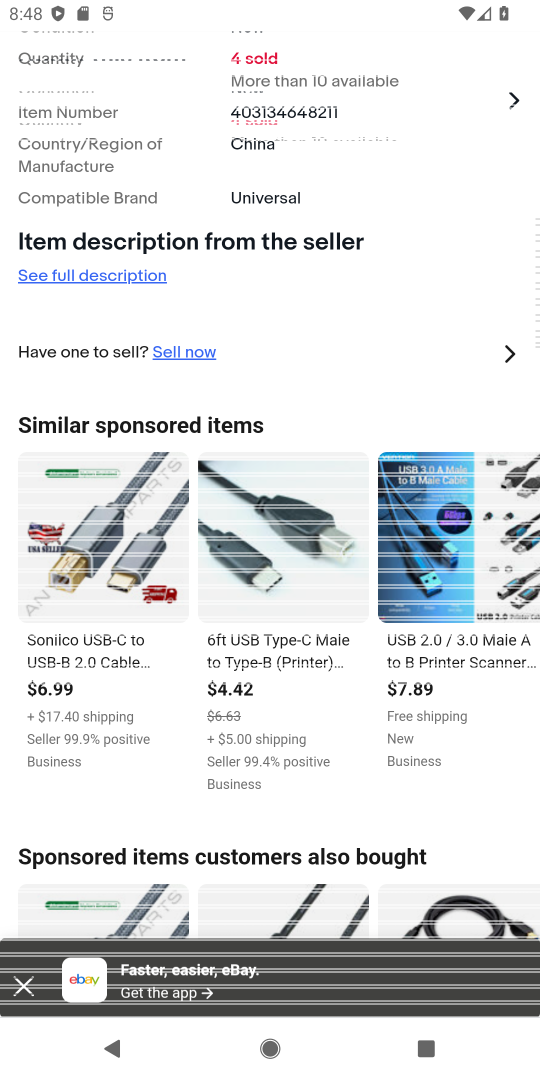
Step 47: drag from (279, 675) to (323, 374)
Your task to perform on an android device: Search for usb-c to usb-b on ebay.com, select the first entry, and add it to the cart. Image 48: 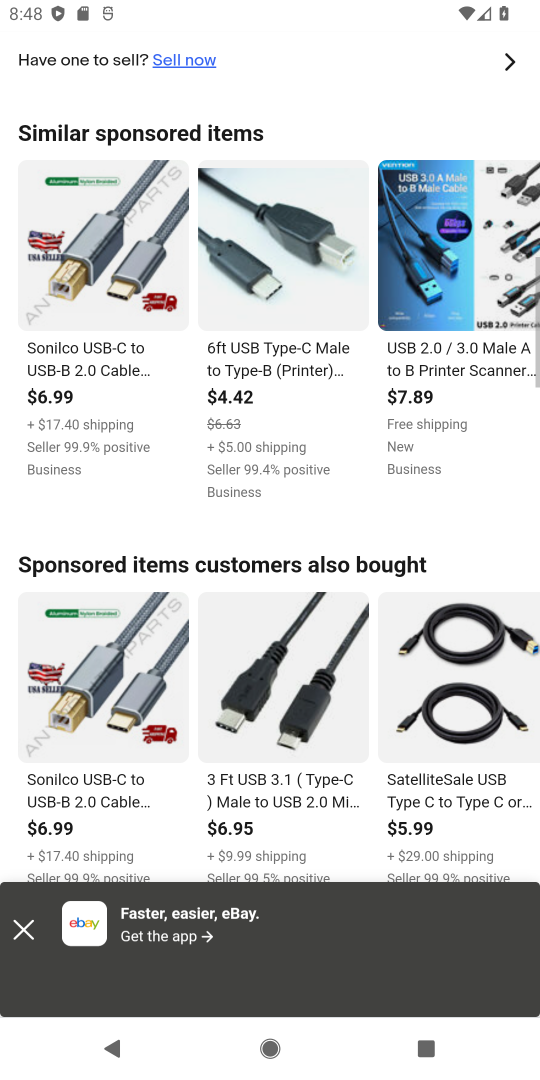
Step 48: drag from (329, 673) to (373, 312)
Your task to perform on an android device: Search for usb-c to usb-b on ebay.com, select the first entry, and add it to the cart. Image 49: 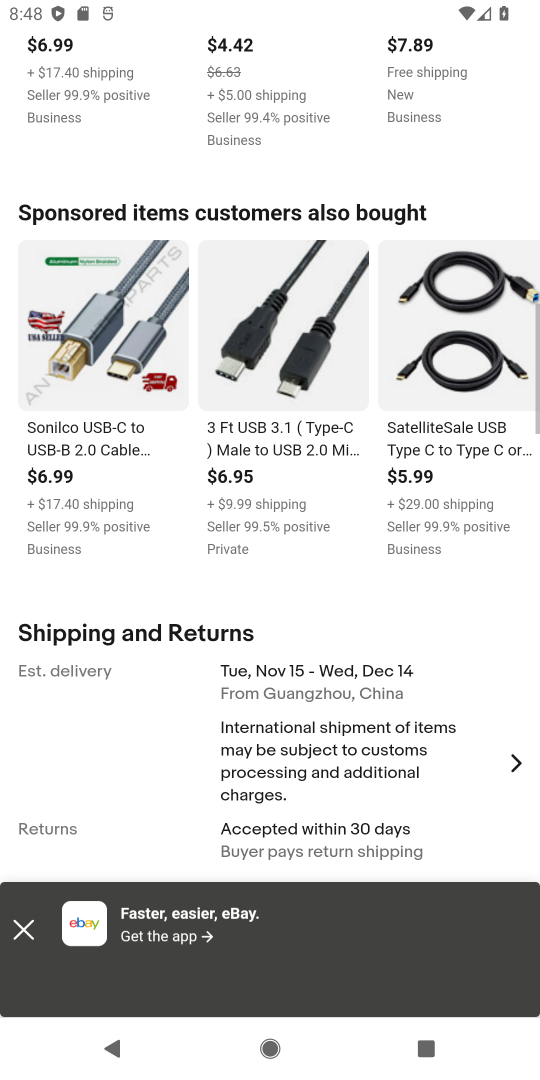
Step 49: drag from (348, 664) to (405, 193)
Your task to perform on an android device: Search for usb-c to usb-b on ebay.com, select the first entry, and add it to the cart. Image 50: 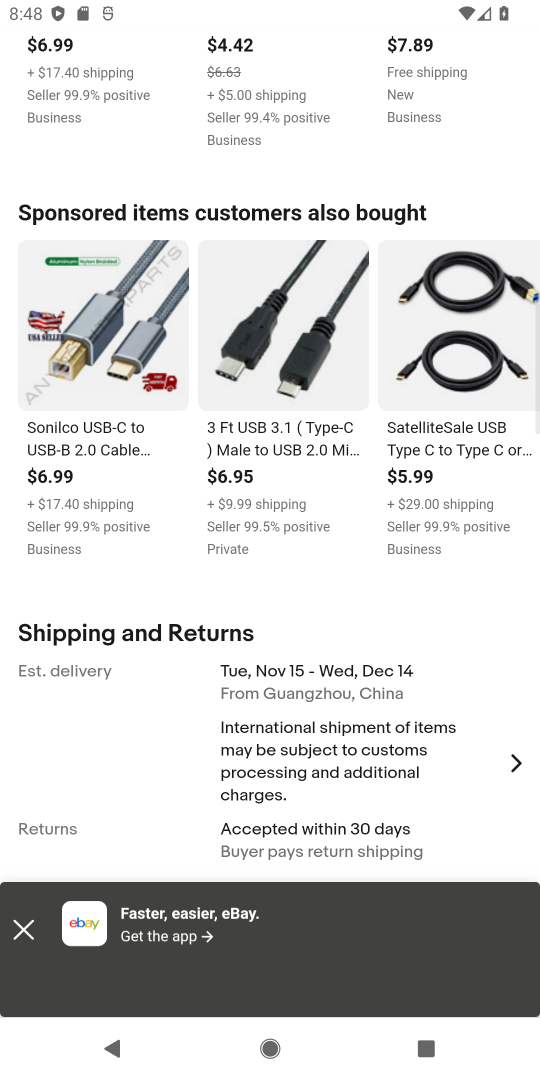
Step 50: drag from (369, 663) to (396, 163)
Your task to perform on an android device: Search for usb-c to usb-b on ebay.com, select the first entry, and add it to the cart. Image 51: 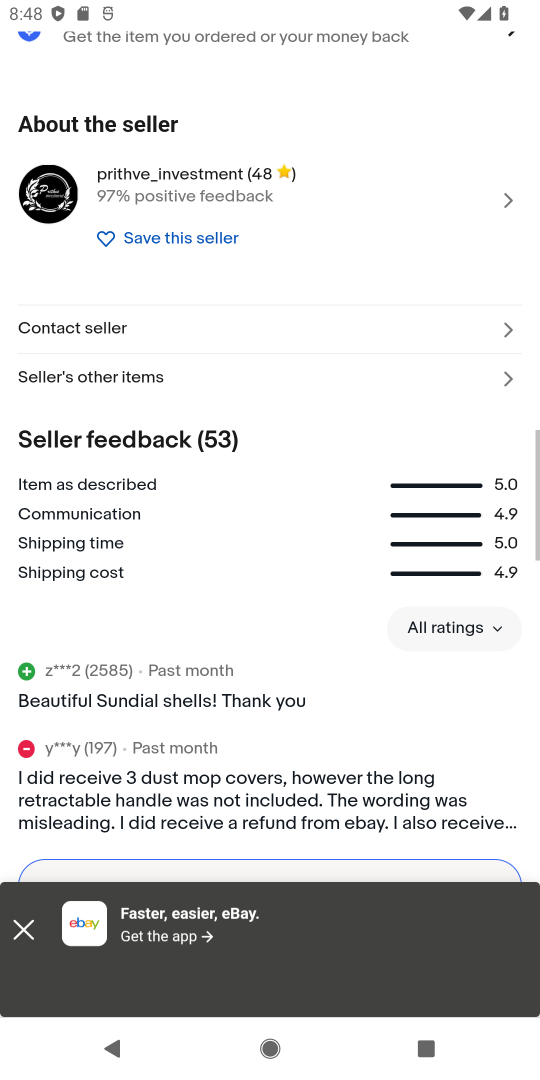
Step 51: drag from (357, 443) to (388, 166)
Your task to perform on an android device: Search for usb-c to usb-b on ebay.com, select the first entry, and add it to the cart. Image 52: 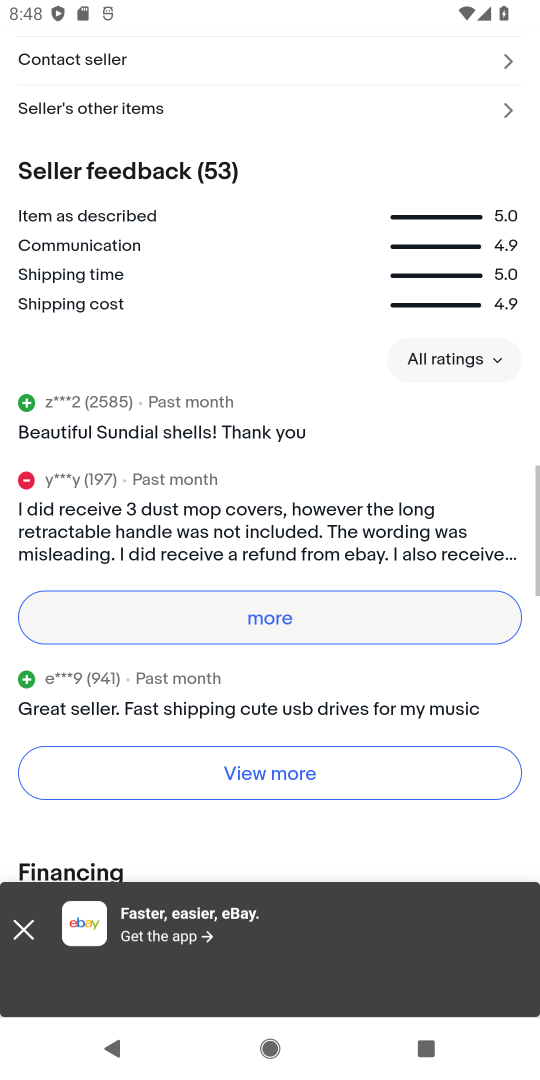
Step 52: drag from (344, 569) to (378, 126)
Your task to perform on an android device: Search for usb-c to usb-b on ebay.com, select the first entry, and add it to the cart. Image 53: 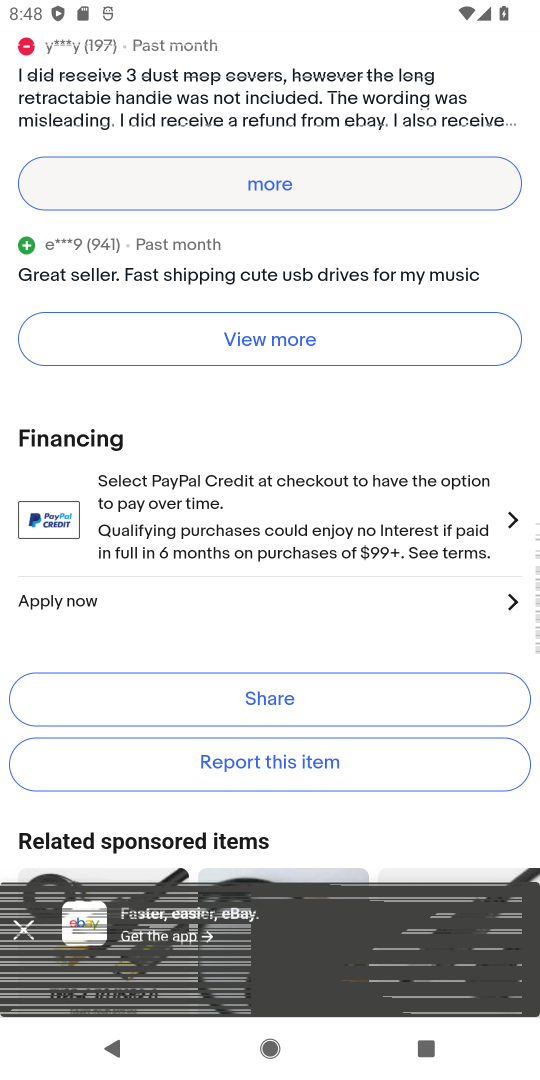
Step 53: drag from (365, 528) to (393, 132)
Your task to perform on an android device: Search for usb-c to usb-b on ebay.com, select the first entry, and add it to the cart. Image 54: 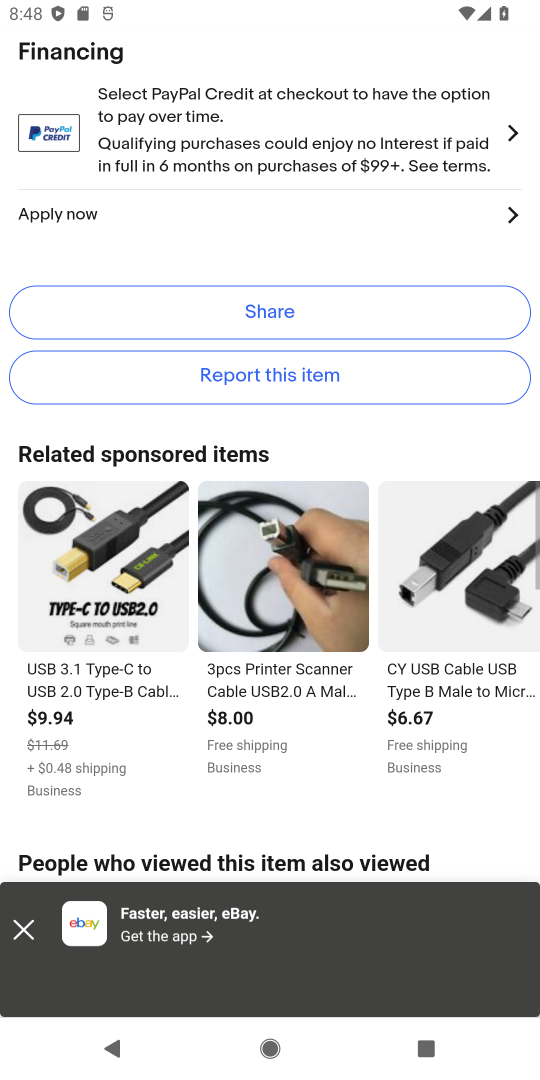
Step 54: drag from (398, 144) to (409, 57)
Your task to perform on an android device: Search for usb-c to usb-b on ebay.com, select the first entry, and add it to the cart. Image 55: 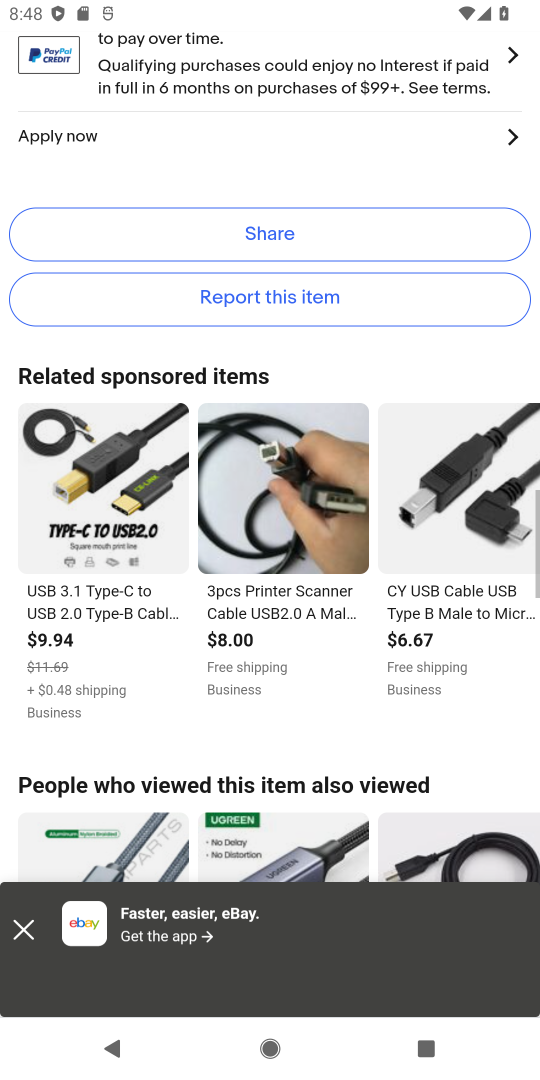
Step 55: drag from (394, 309) to (417, 160)
Your task to perform on an android device: Search for usb-c to usb-b on ebay.com, select the first entry, and add it to the cart. Image 56: 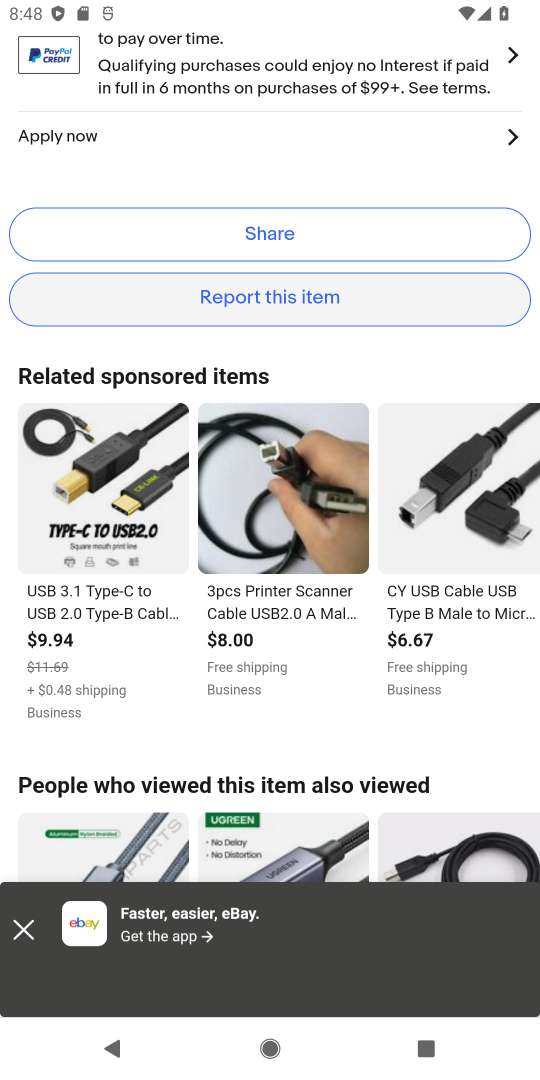
Step 56: drag from (374, 372) to (414, 36)
Your task to perform on an android device: Search for usb-c to usb-b on ebay.com, select the first entry, and add it to the cart. Image 57: 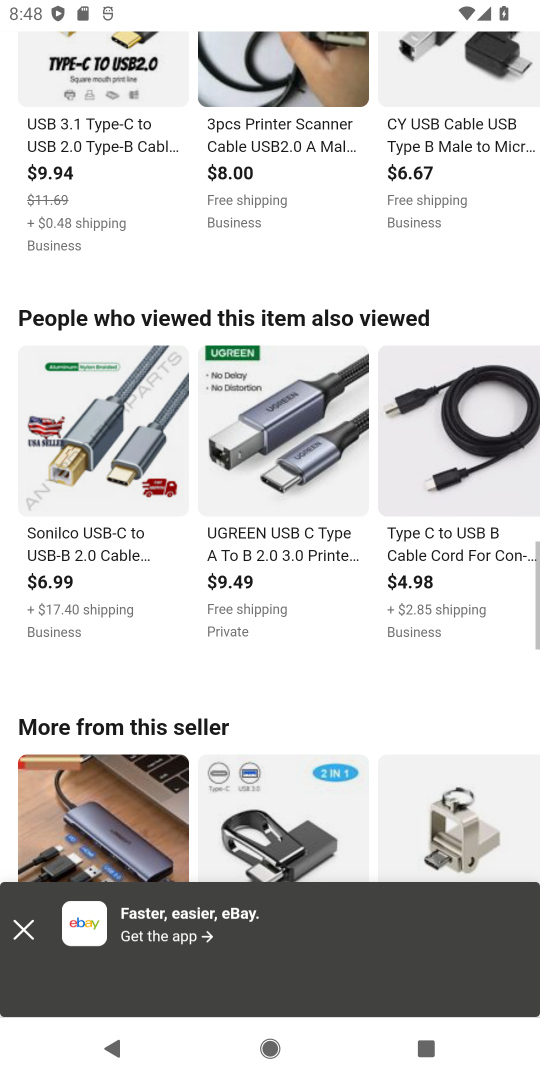
Step 57: drag from (375, 551) to (386, 168)
Your task to perform on an android device: Search for usb-c to usb-b on ebay.com, select the first entry, and add it to the cart. Image 58: 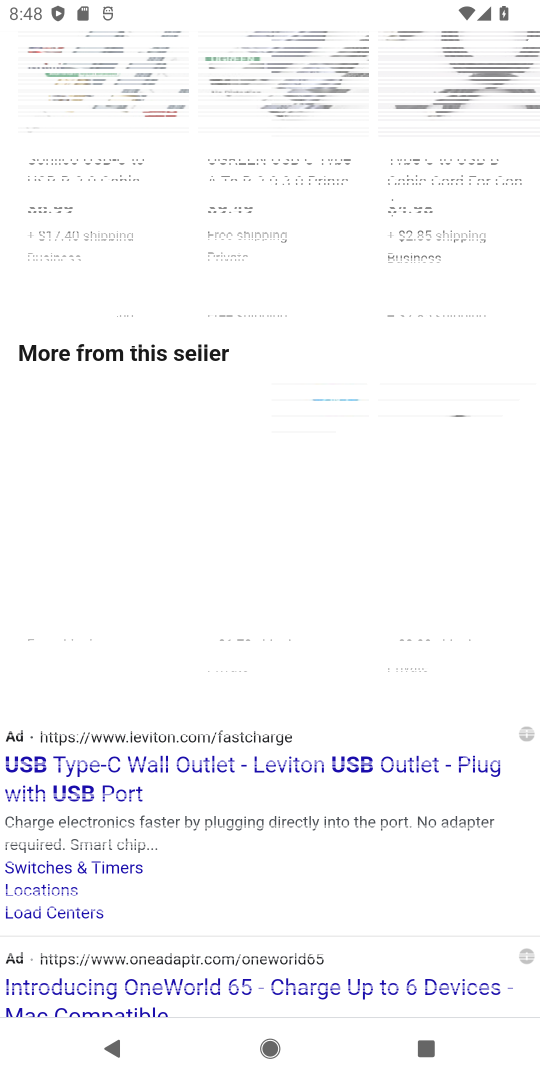
Step 58: drag from (337, 476) to (393, 130)
Your task to perform on an android device: Search for usb-c to usb-b on ebay.com, select the first entry, and add it to the cart. Image 59: 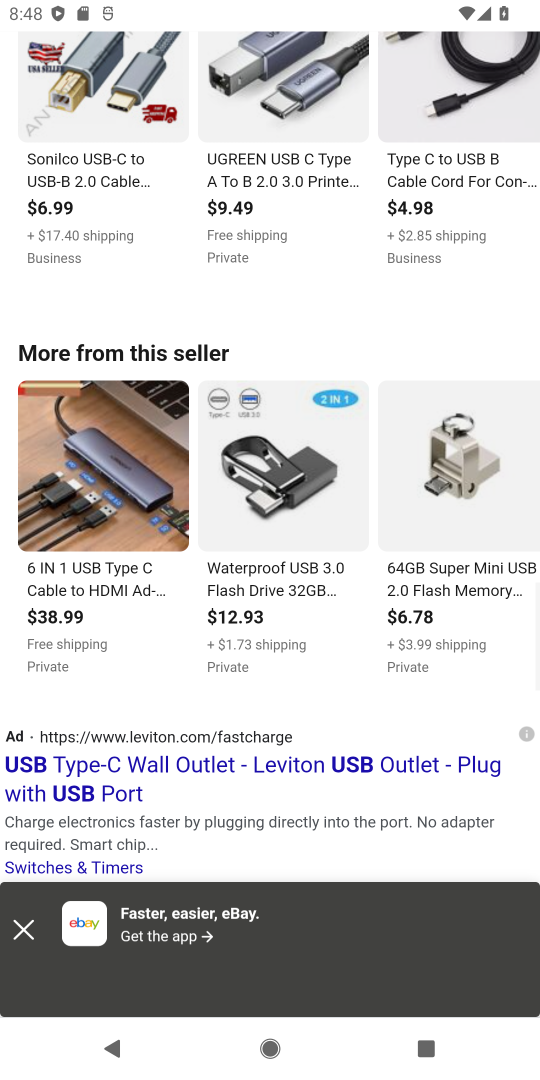
Step 59: drag from (341, 329) to (368, 183)
Your task to perform on an android device: Search for usb-c to usb-b on ebay.com, select the first entry, and add it to the cart. Image 60: 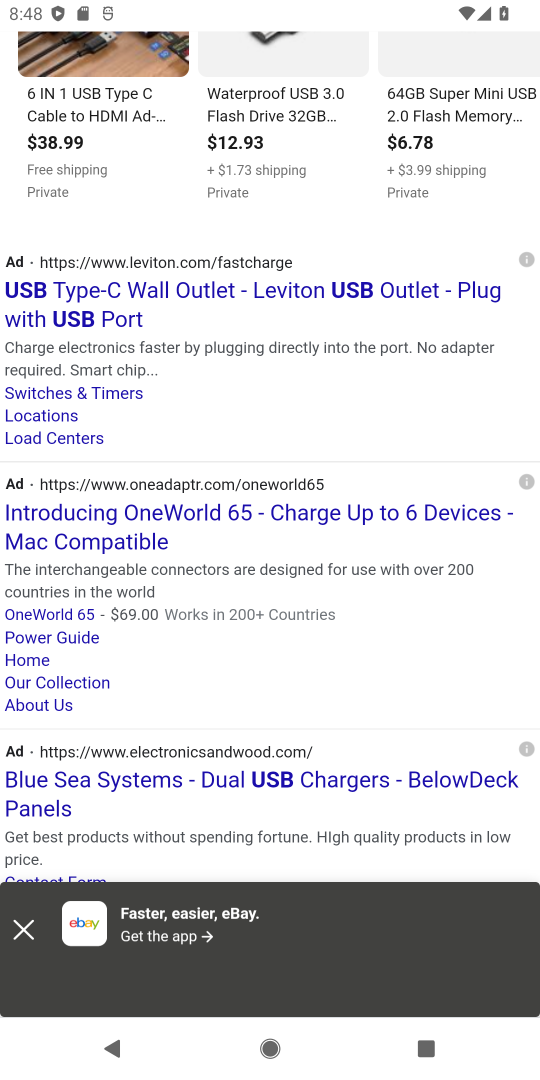
Step 60: click (16, 940)
Your task to perform on an android device: Search for usb-c to usb-b on ebay.com, select the first entry, and add it to the cart. Image 61: 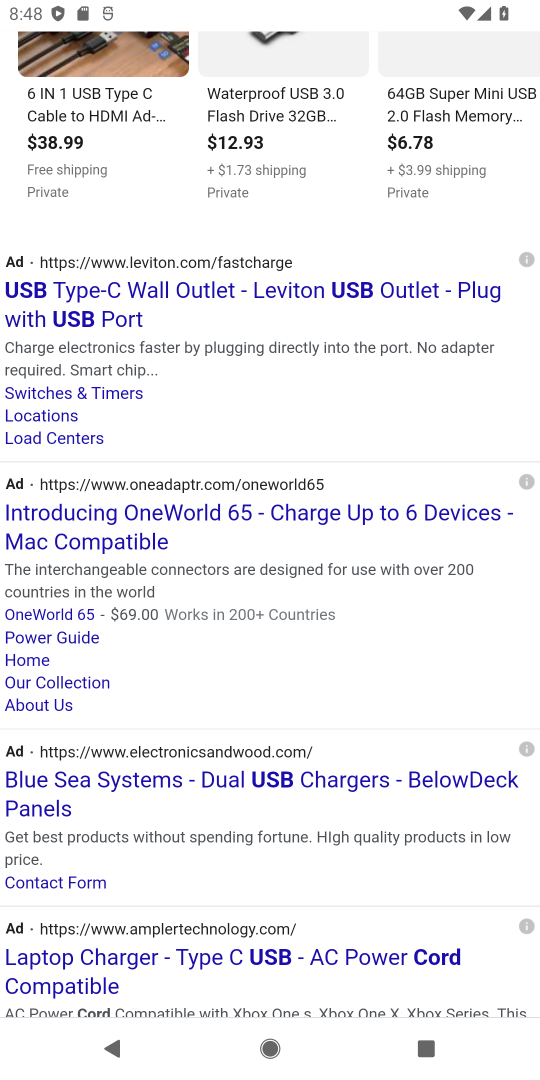
Step 61: drag from (116, 770) to (200, 383)
Your task to perform on an android device: Search for usb-c to usb-b on ebay.com, select the first entry, and add it to the cart. Image 62: 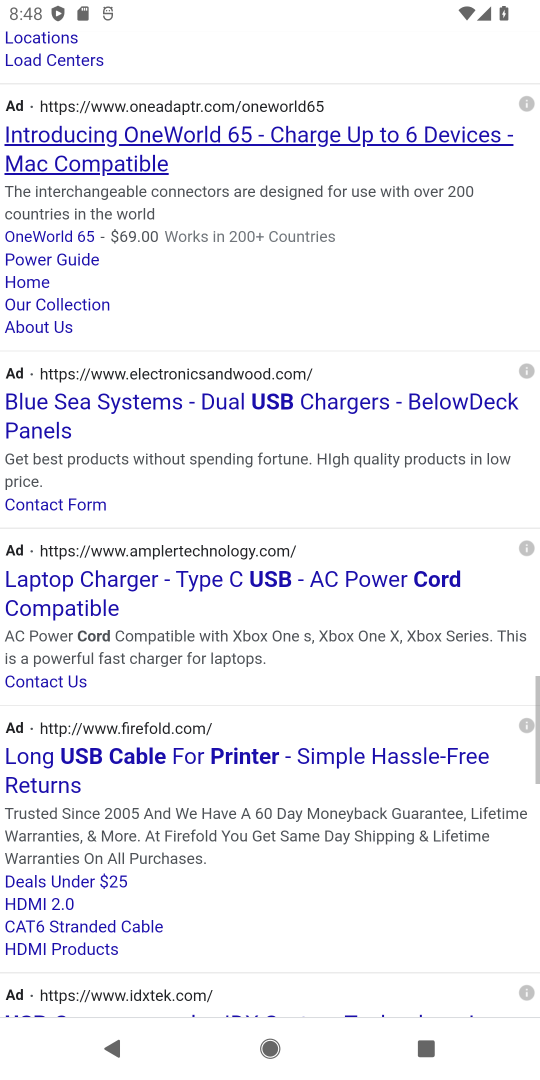
Step 62: drag from (140, 819) to (205, 287)
Your task to perform on an android device: Search for usb-c to usb-b on ebay.com, select the first entry, and add it to the cart. Image 63: 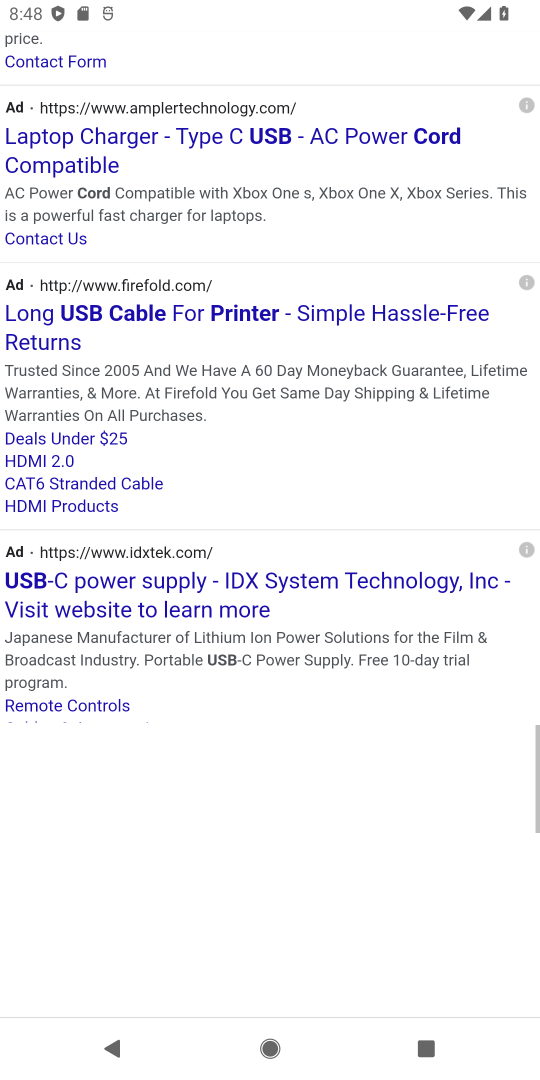
Step 63: drag from (237, 471) to (280, 272)
Your task to perform on an android device: Search for usb-c to usb-b on ebay.com, select the first entry, and add it to the cart. Image 64: 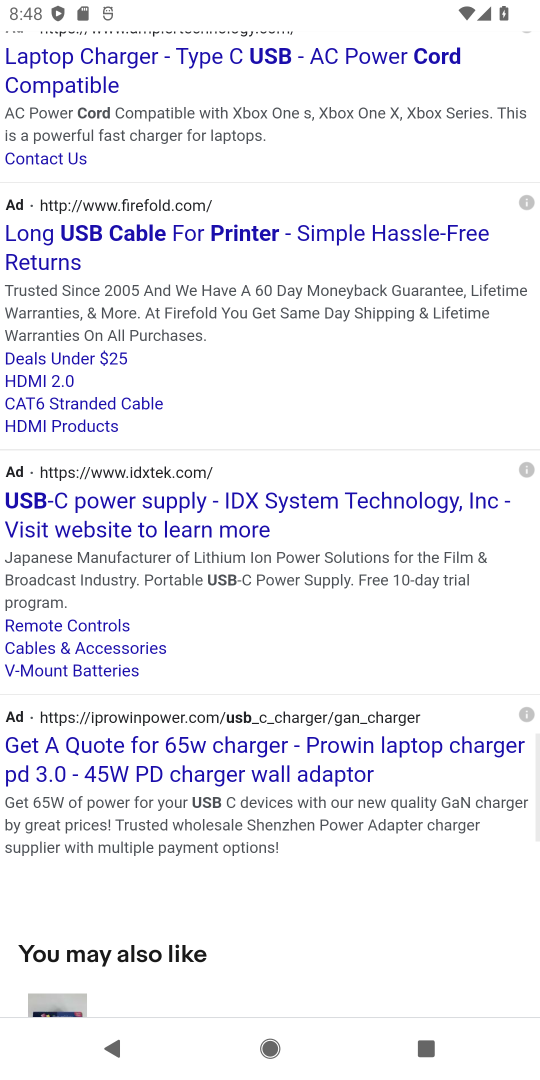
Step 64: drag from (248, 573) to (311, 288)
Your task to perform on an android device: Search for usb-c to usb-b on ebay.com, select the first entry, and add it to the cart. Image 65: 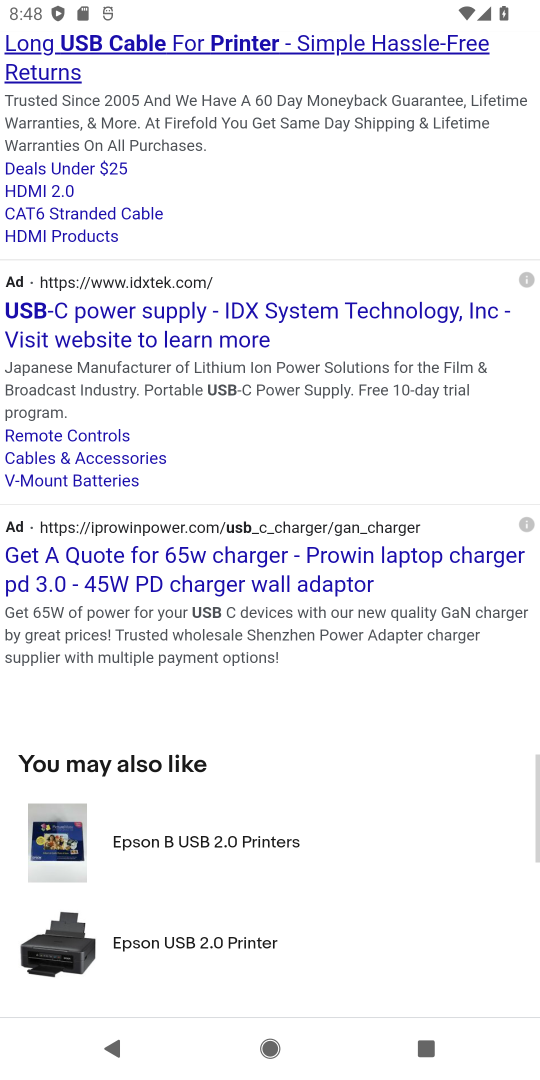
Step 65: drag from (273, 536) to (325, 265)
Your task to perform on an android device: Search for usb-c to usb-b on ebay.com, select the first entry, and add it to the cart. Image 66: 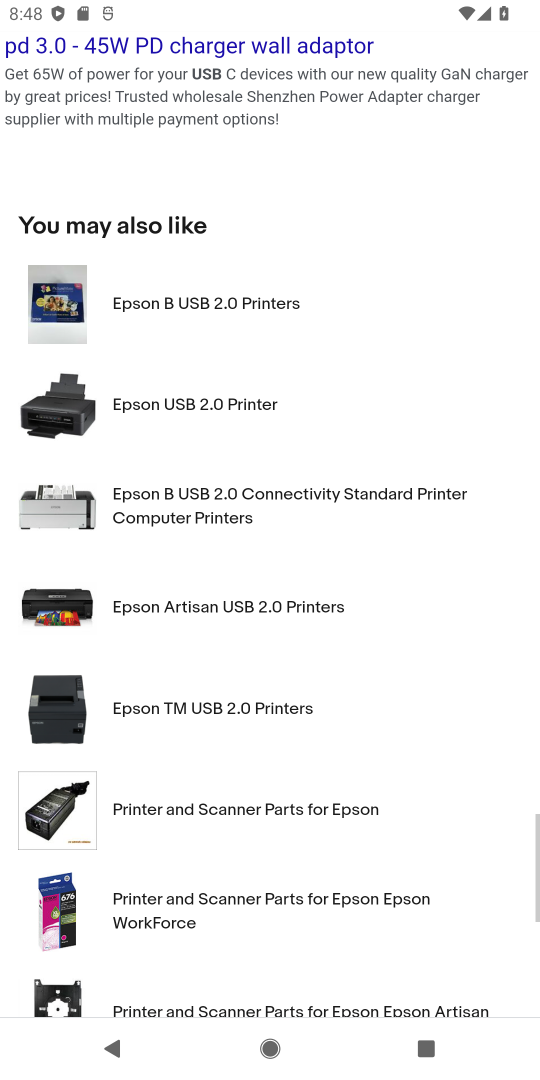
Step 66: click (328, 261)
Your task to perform on an android device: Search for usb-c to usb-b on ebay.com, select the first entry, and add it to the cart. Image 67: 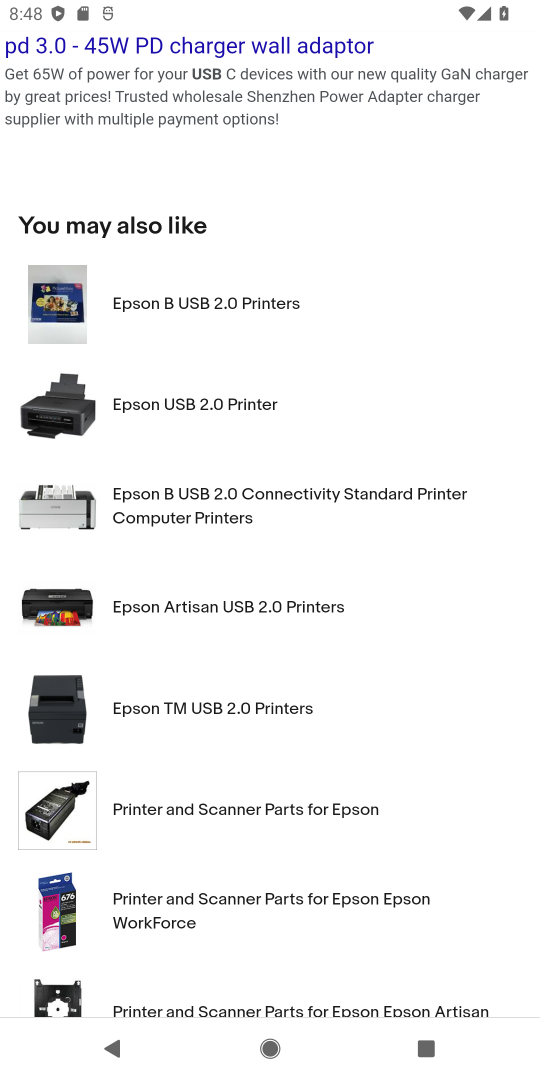
Step 67: press back button
Your task to perform on an android device: Search for usb-c to usb-b on ebay.com, select the first entry, and add it to the cart. Image 68: 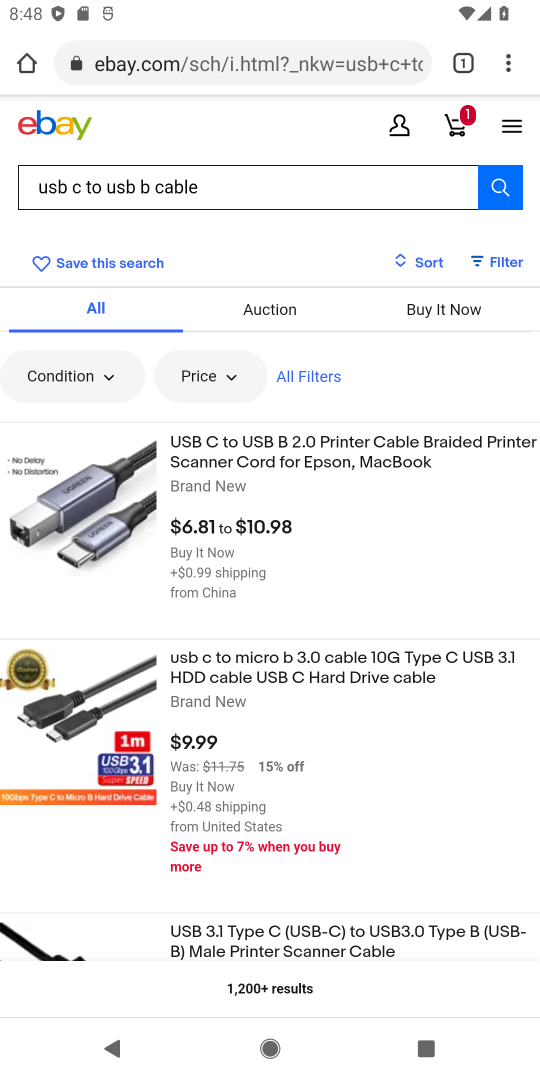
Step 68: click (163, 692)
Your task to perform on an android device: Search for usb-c to usb-b on ebay.com, select the first entry, and add it to the cart. Image 69: 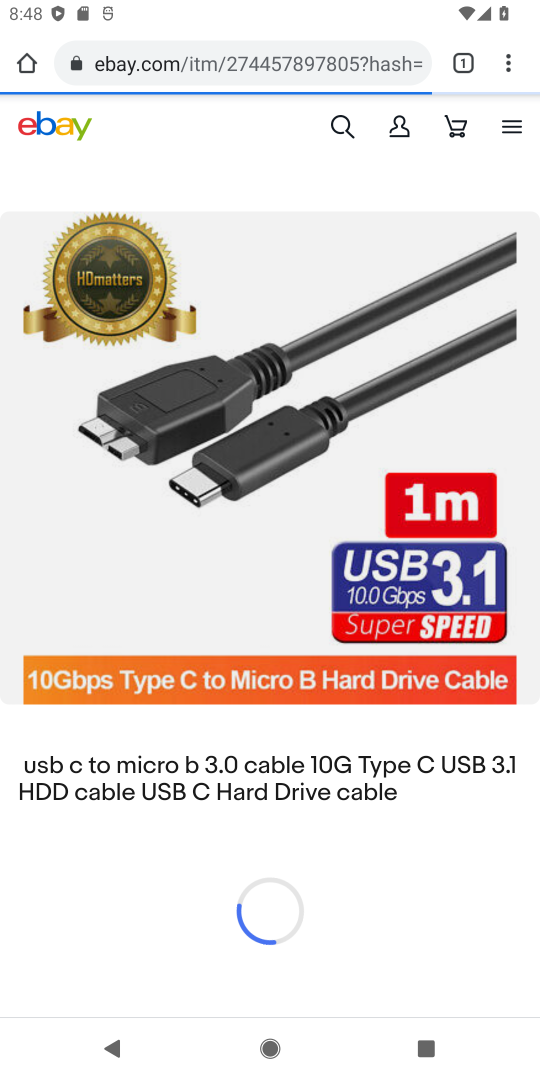
Step 69: drag from (195, 749) to (342, 158)
Your task to perform on an android device: Search for usb-c to usb-b on ebay.com, select the first entry, and add it to the cart. Image 70: 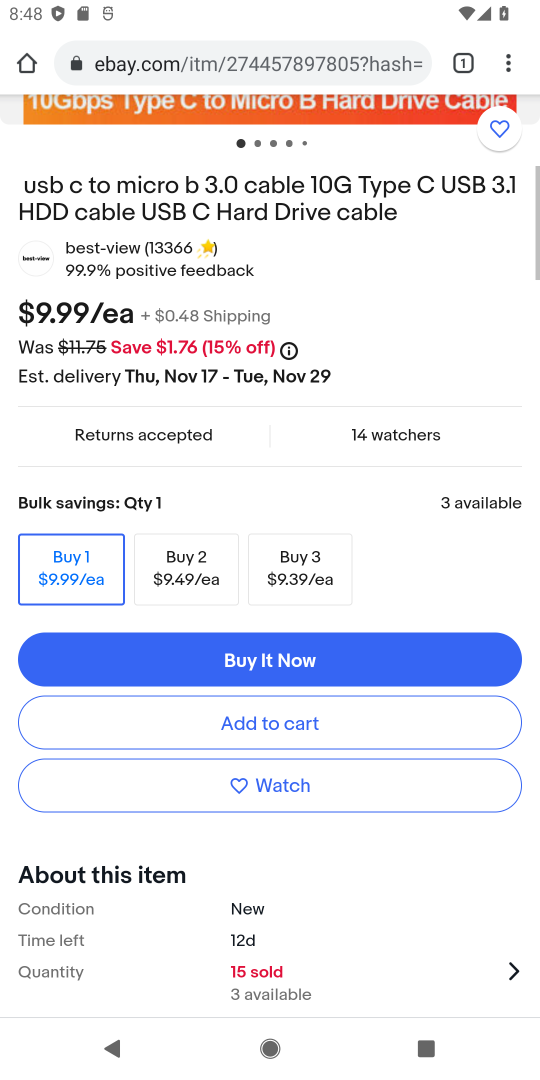
Step 70: drag from (160, 676) to (240, 305)
Your task to perform on an android device: Search for usb-c to usb-b on ebay.com, select the first entry, and add it to the cart. Image 71: 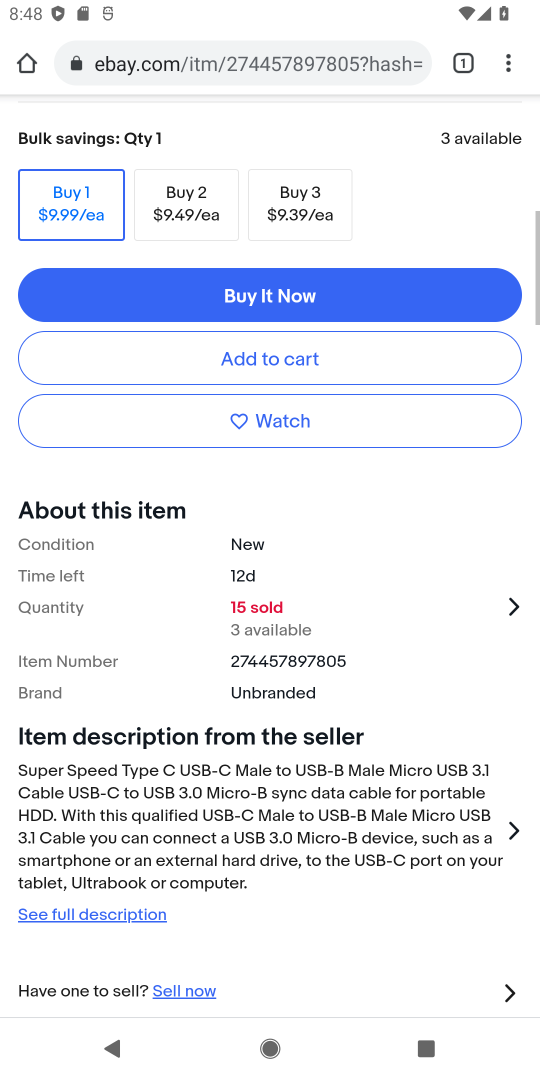
Step 71: drag from (240, 461) to (261, 249)
Your task to perform on an android device: Search for usb-c to usb-b on ebay.com, select the first entry, and add it to the cart. Image 72: 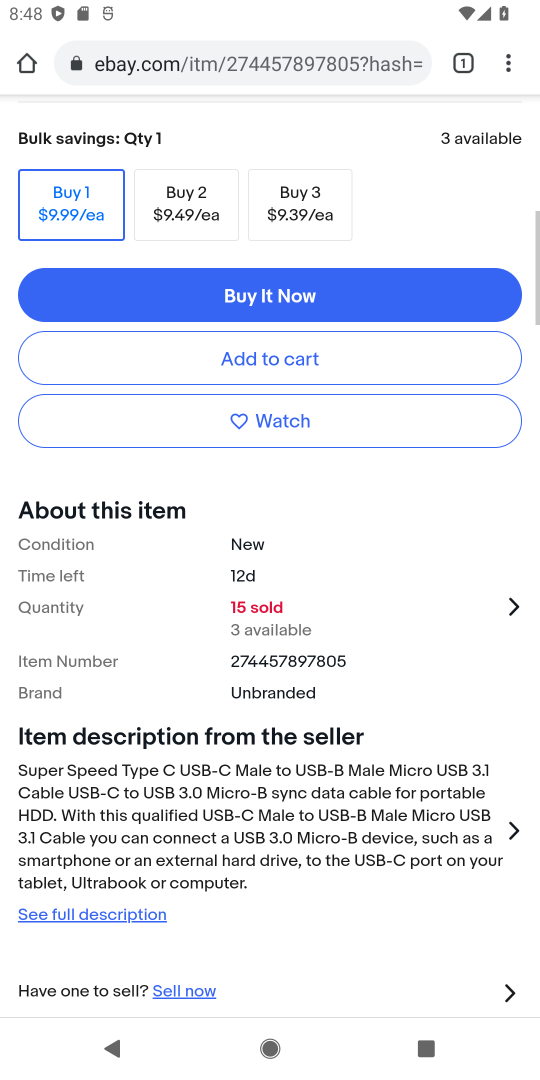
Step 72: drag from (227, 524) to (266, 327)
Your task to perform on an android device: Search for usb-c to usb-b on ebay.com, select the first entry, and add it to the cart. Image 73: 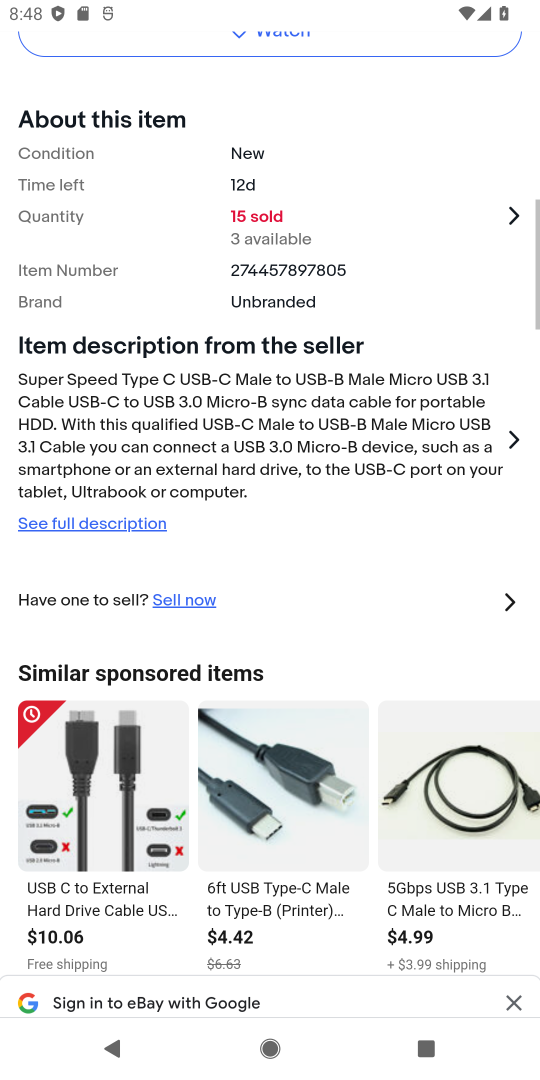
Step 73: drag from (283, 481) to (253, 831)
Your task to perform on an android device: Search for usb-c to usb-b on ebay.com, select the first entry, and add it to the cart. Image 74: 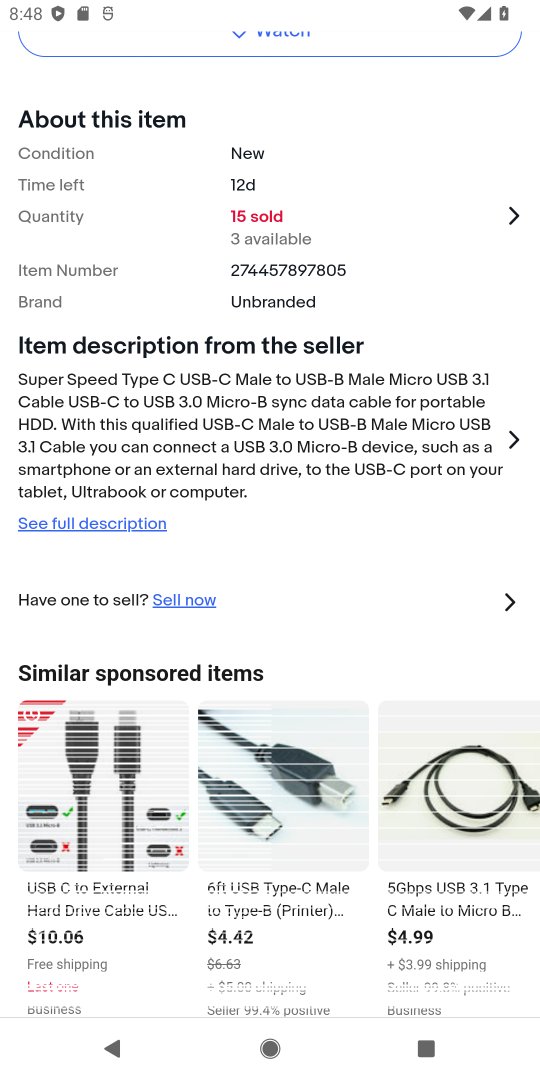
Step 74: drag from (245, 590) to (229, 867)
Your task to perform on an android device: Search for usb-c to usb-b on ebay.com, select the first entry, and add it to the cart. Image 75: 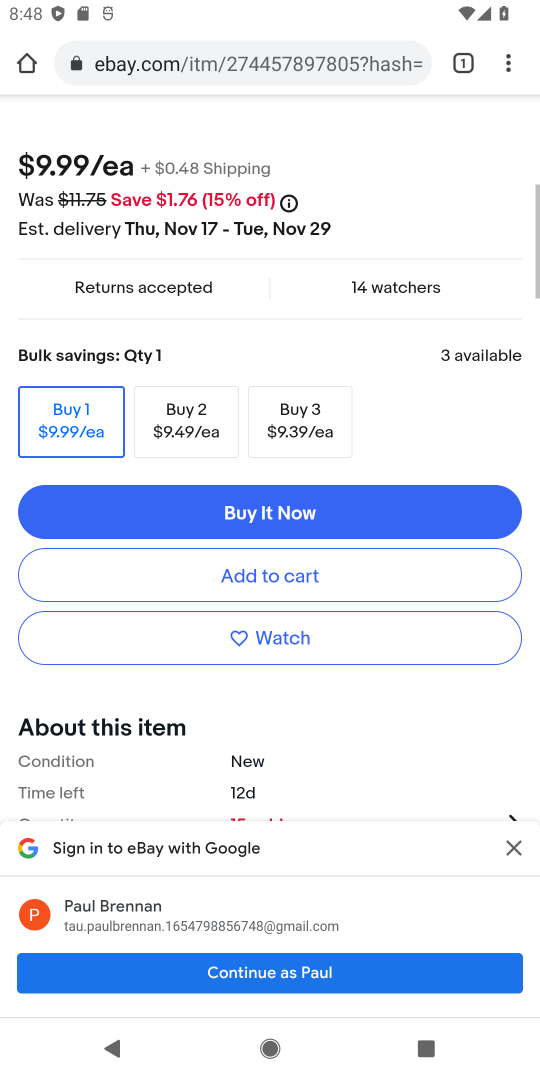
Step 75: drag from (244, 425) to (260, 857)
Your task to perform on an android device: Search for usb-c to usb-b on ebay.com, select the first entry, and add it to the cart. Image 76: 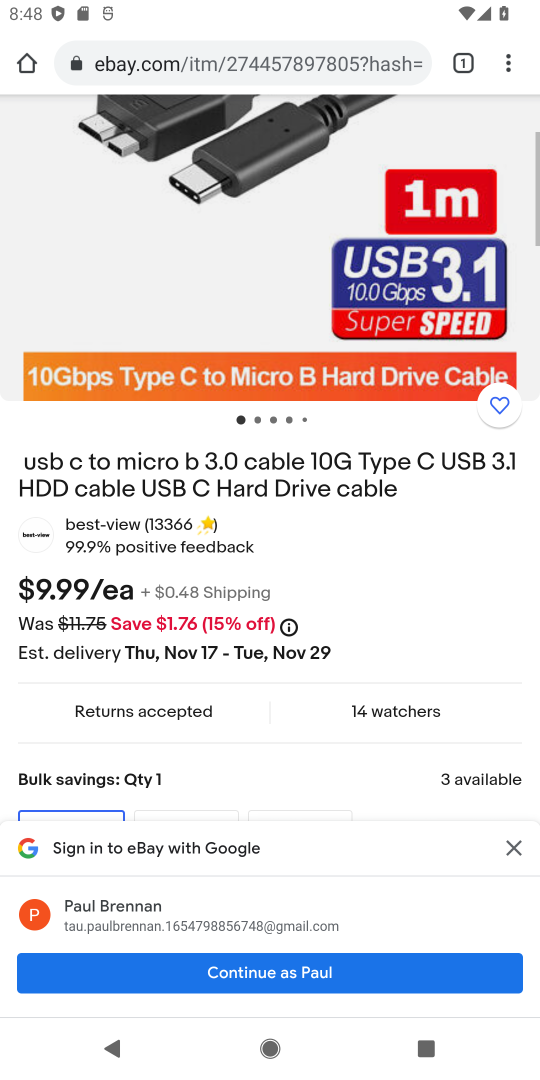
Step 76: drag from (260, 388) to (246, 810)
Your task to perform on an android device: Search for usb-c to usb-b on ebay.com, select the first entry, and add it to the cart. Image 77: 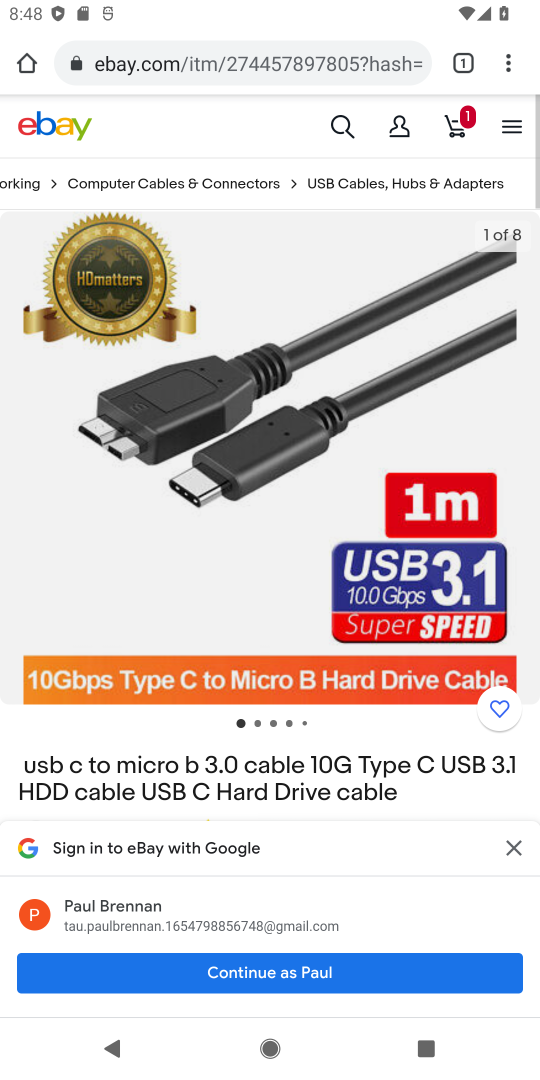
Step 77: drag from (298, 354) to (281, 776)
Your task to perform on an android device: Search for usb-c to usb-b on ebay.com, select the first entry, and add it to the cart. Image 78: 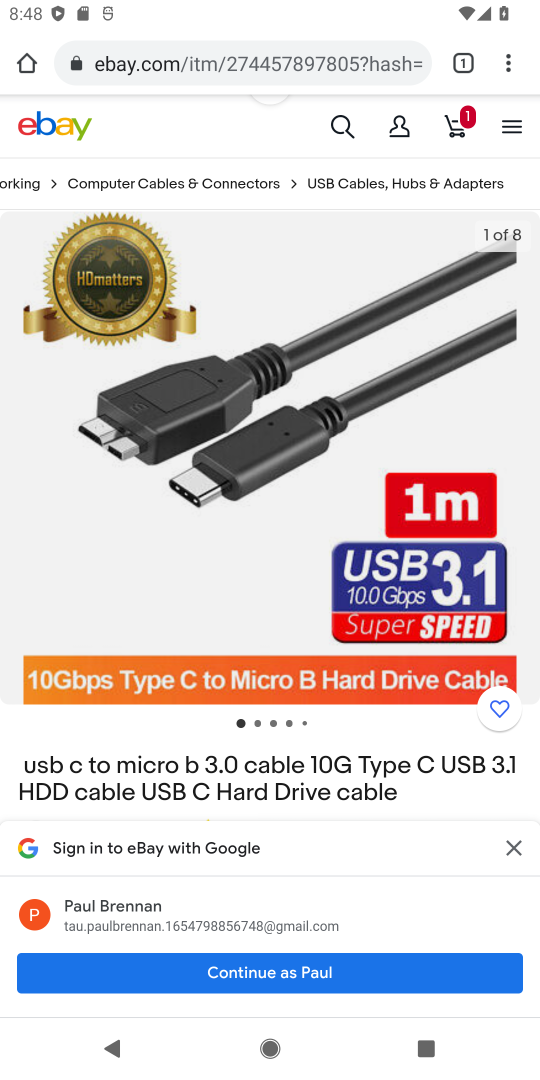
Step 78: click (473, 123)
Your task to perform on an android device: Search for usb-c to usb-b on ebay.com, select the first entry, and add it to the cart. Image 79: 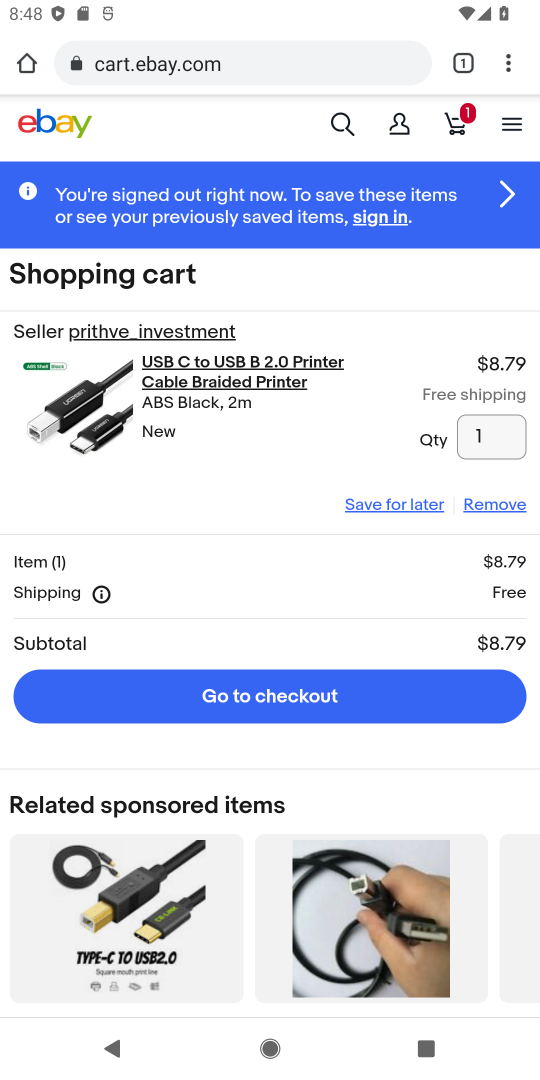
Step 79: click (251, 699)
Your task to perform on an android device: Search for usb-c to usb-b on ebay.com, select the first entry, and add it to the cart. Image 80: 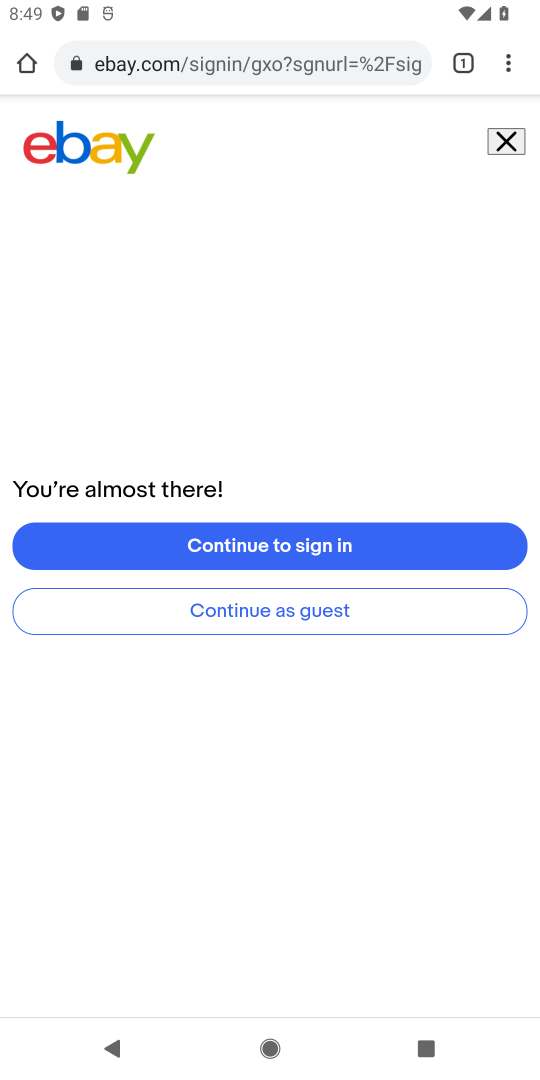
Step 80: click (250, 626)
Your task to perform on an android device: Search for usb-c to usb-b on ebay.com, select the first entry, and add it to the cart. Image 81: 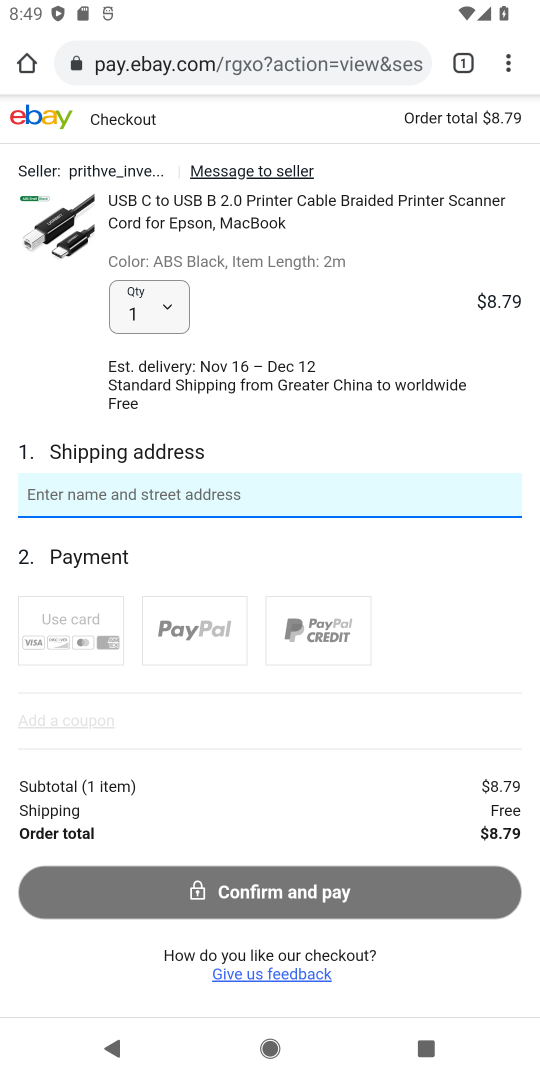
Step 81: task complete